Your task to perform on an android device: open app "DoorDash - Dasher" Image 0: 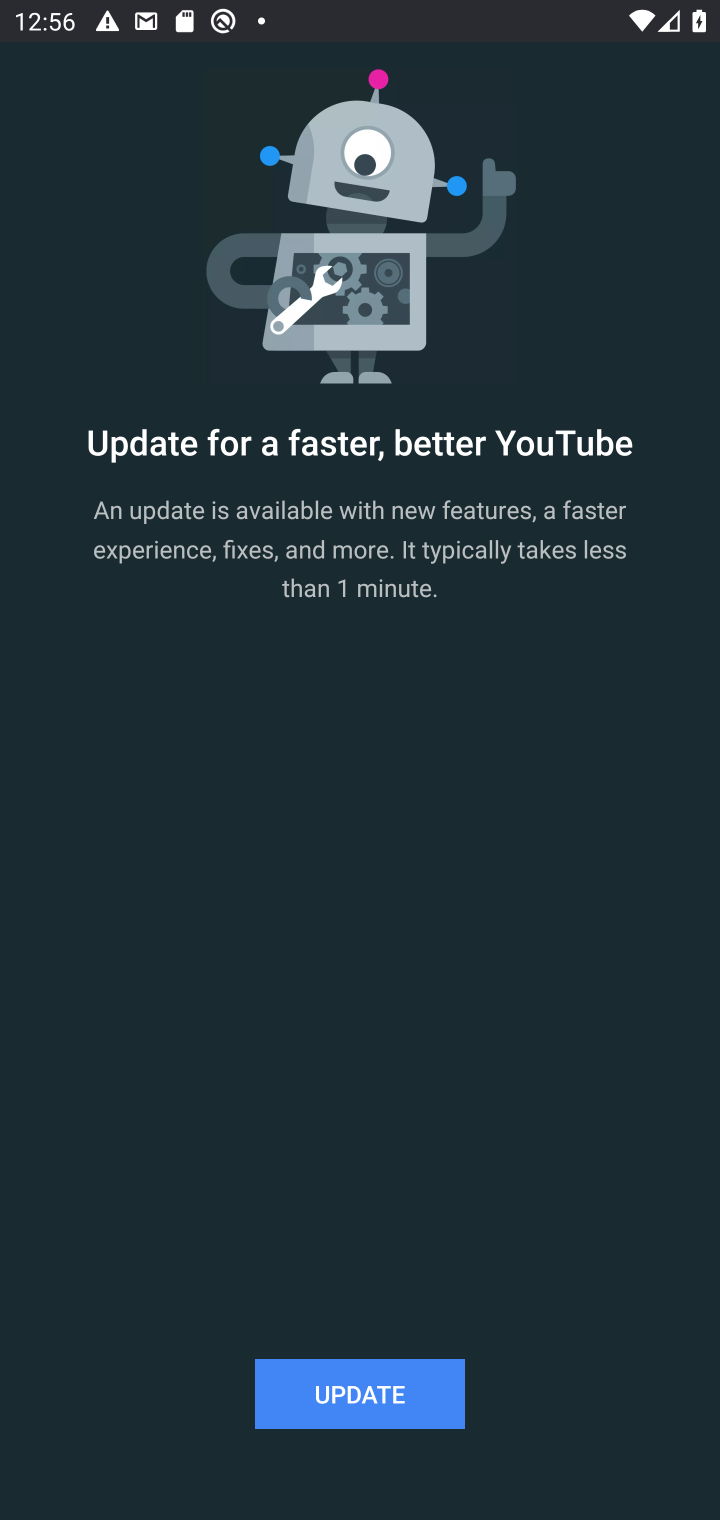
Step 0: press home button
Your task to perform on an android device: open app "DoorDash - Dasher" Image 1: 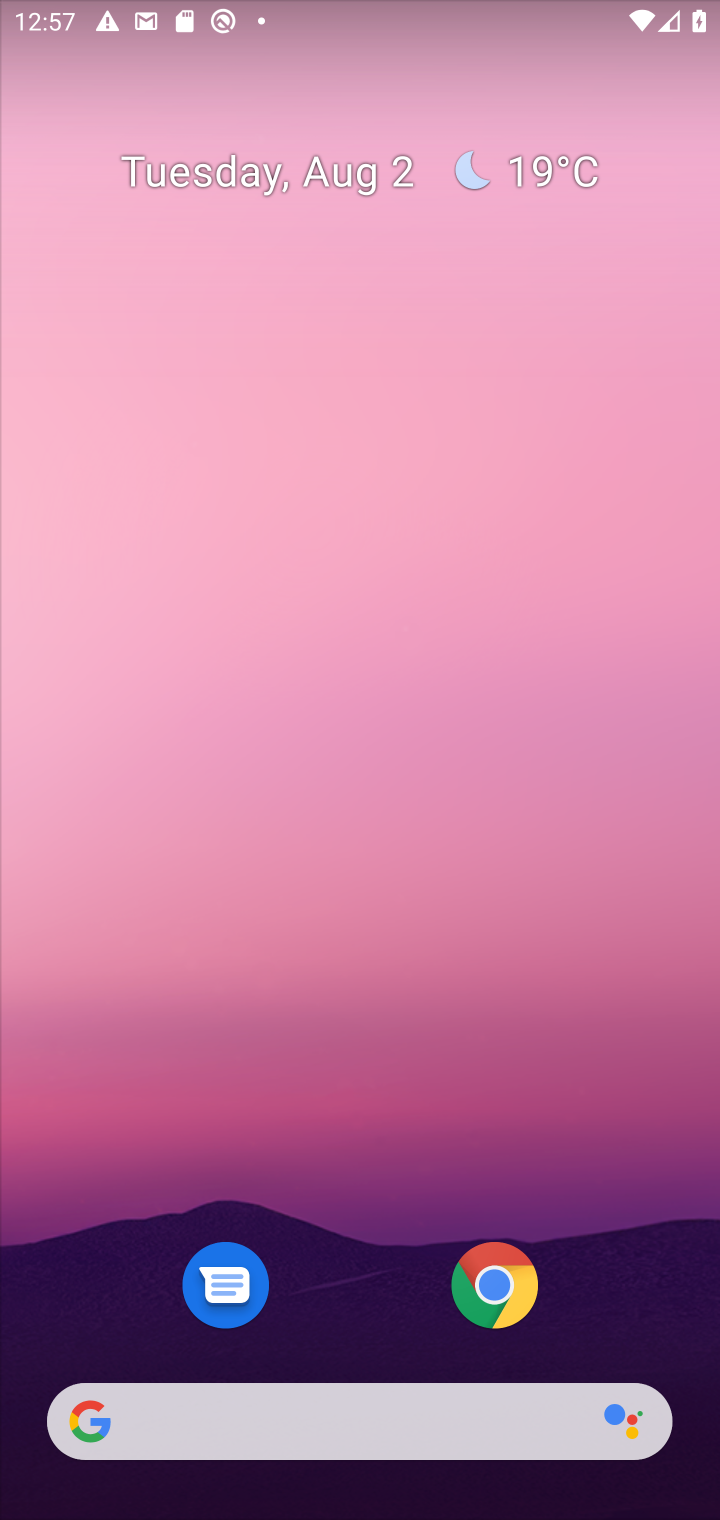
Step 1: drag from (417, 1294) to (498, 281)
Your task to perform on an android device: open app "DoorDash - Dasher" Image 2: 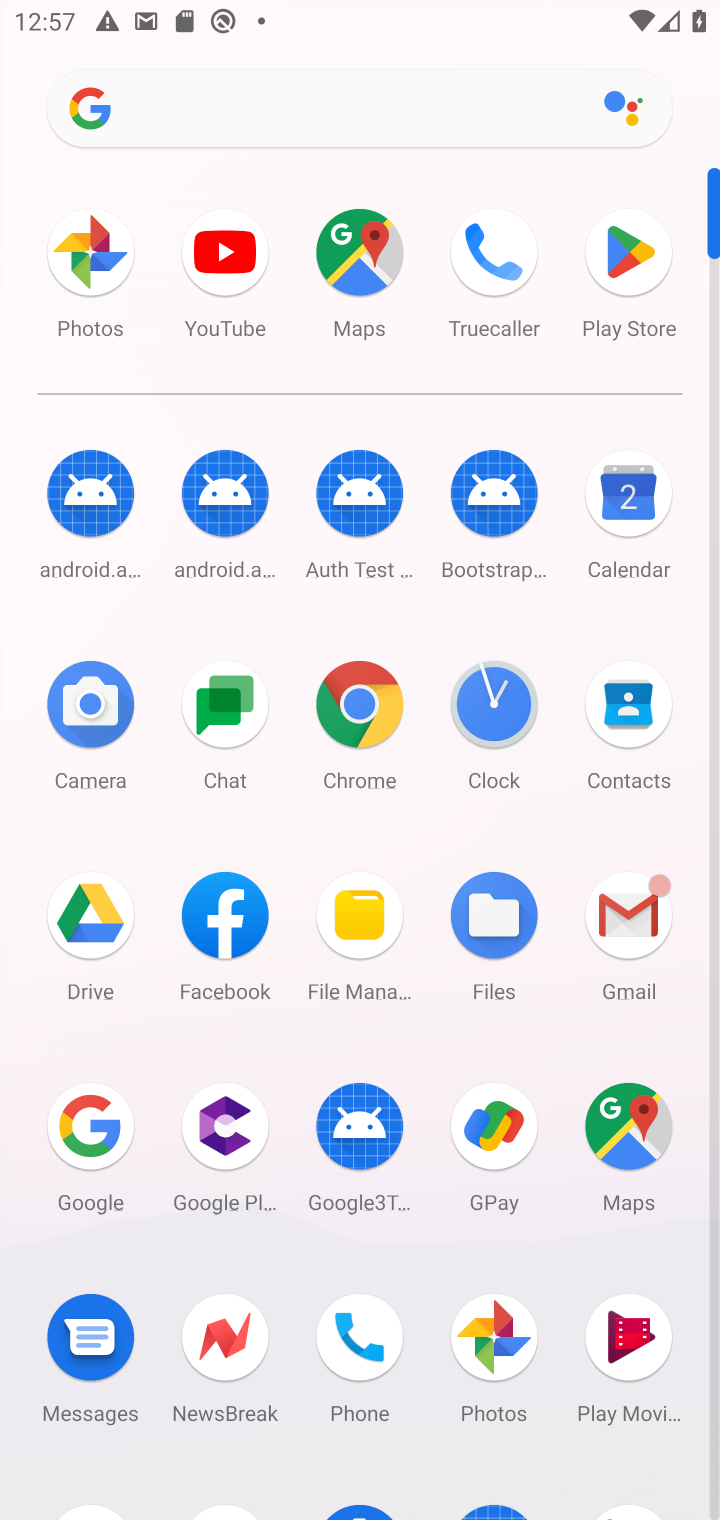
Step 2: click (647, 251)
Your task to perform on an android device: open app "DoorDash - Dasher" Image 3: 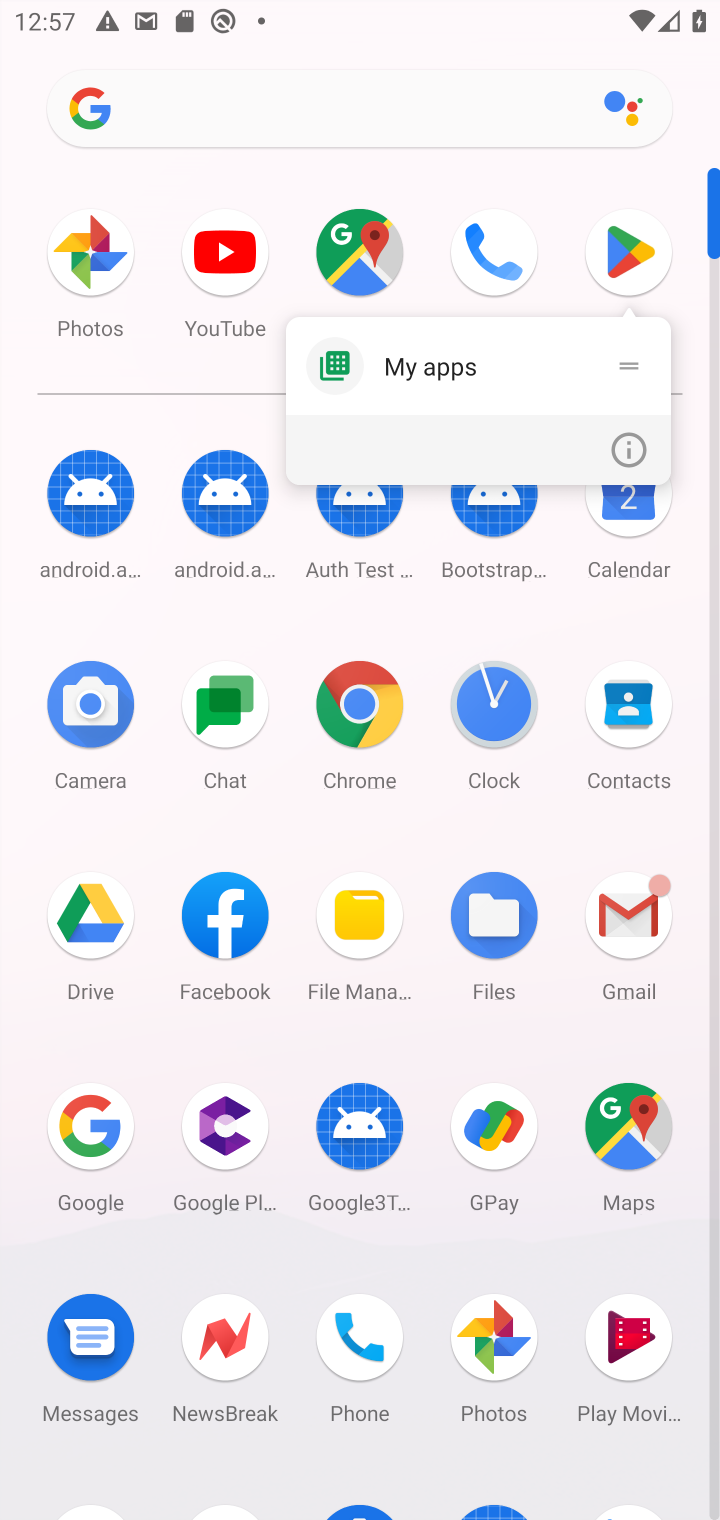
Step 3: click (632, 257)
Your task to perform on an android device: open app "DoorDash - Dasher" Image 4: 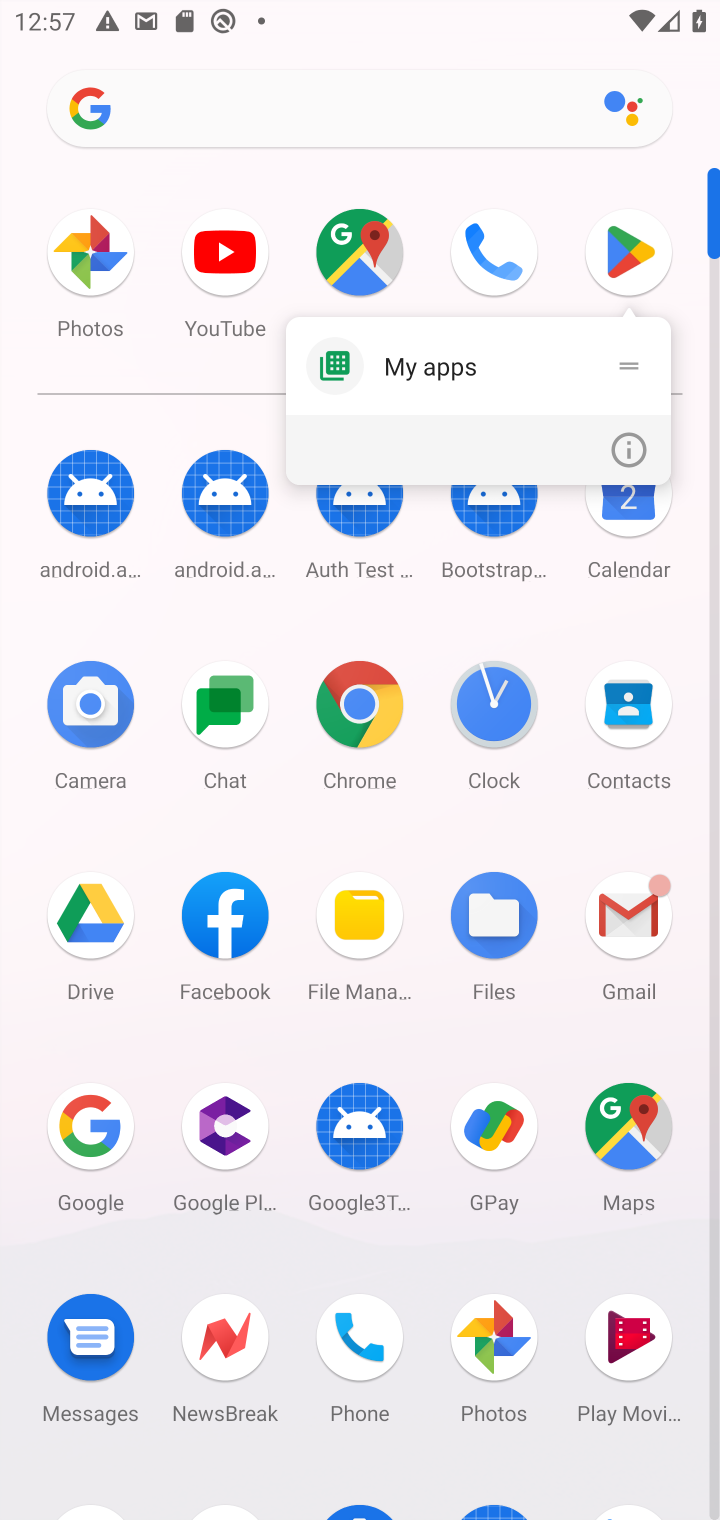
Step 4: click (619, 250)
Your task to perform on an android device: open app "DoorDash - Dasher" Image 5: 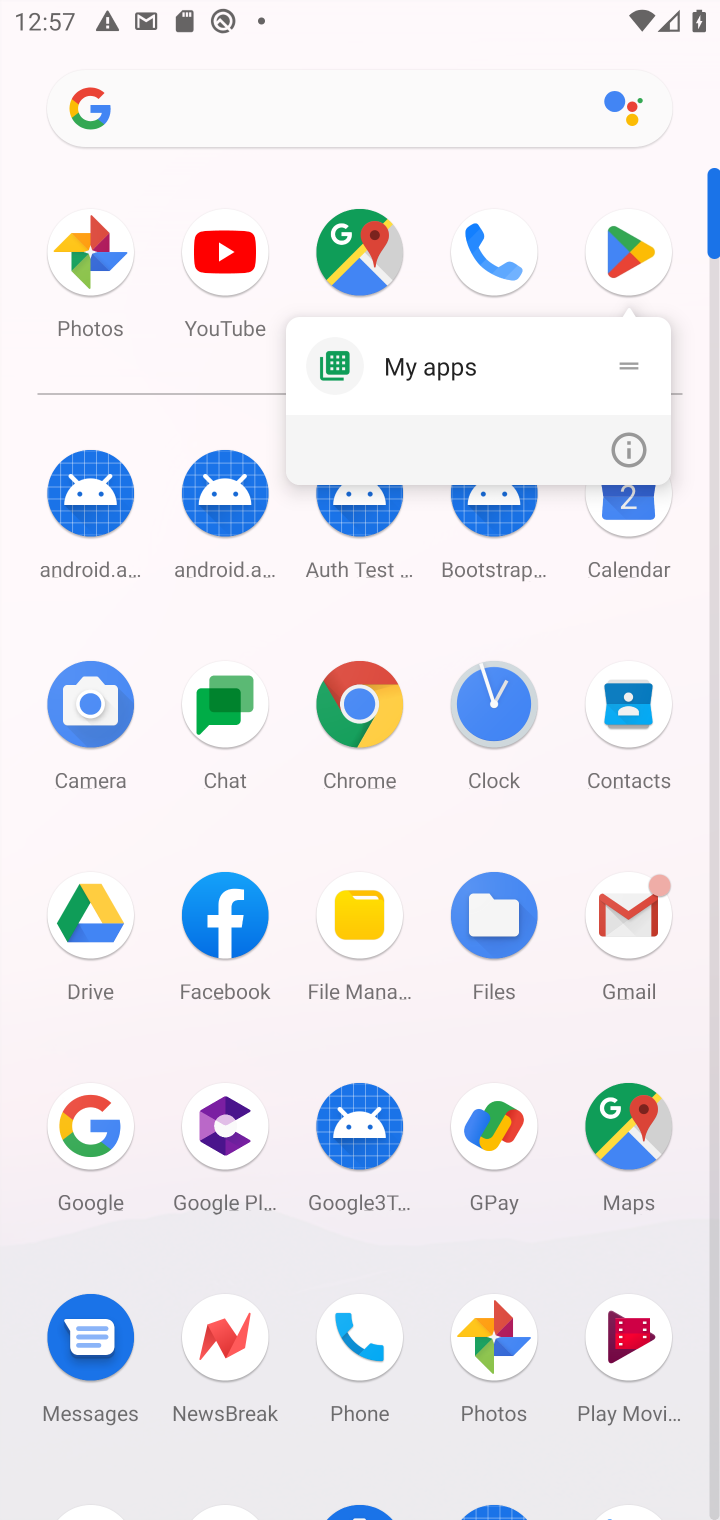
Step 5: click (619, 250)
Your task to perform on an android device: open app "DoorDash - Dasher" Image 6: 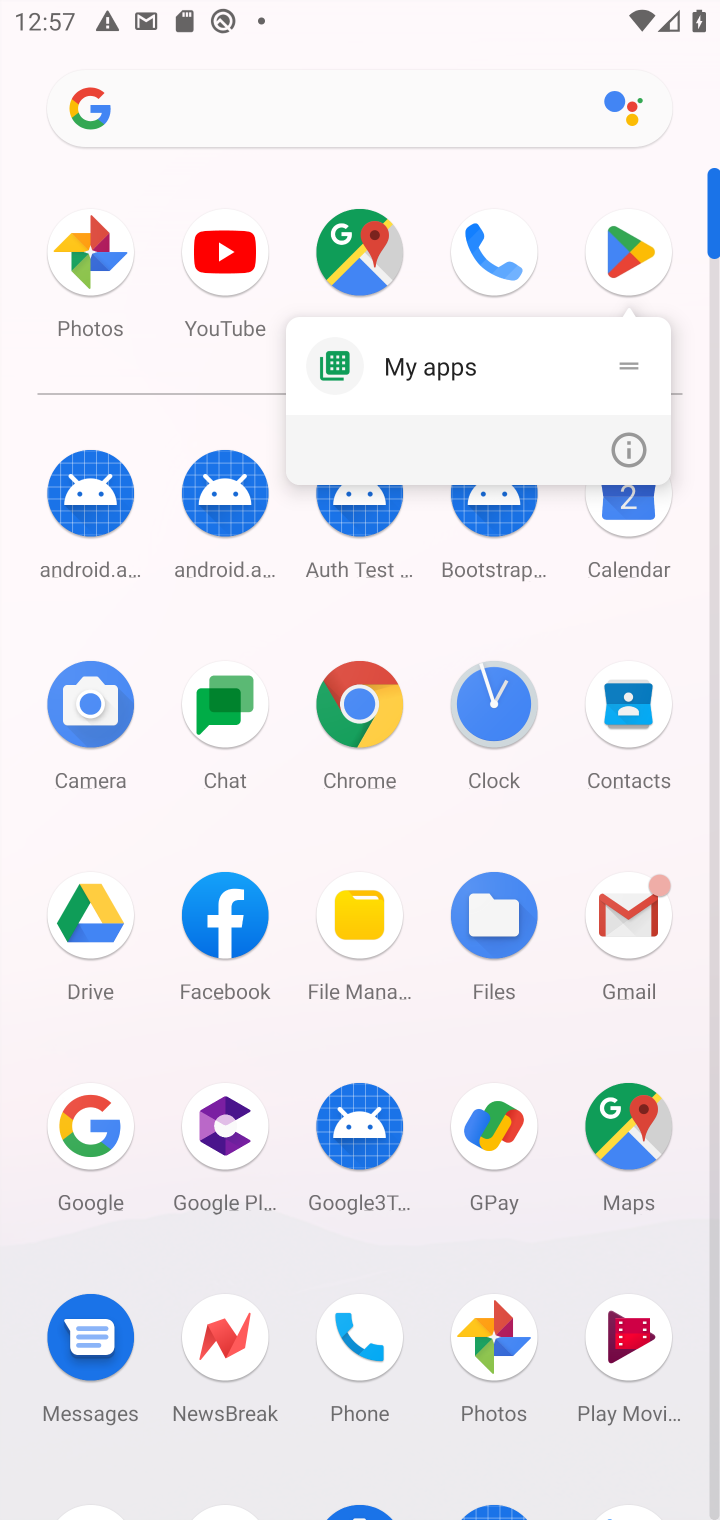
Step 6: click (619, 250)
Your task to perform on an android device: open app "DoorDash - Dasher" Image 7: 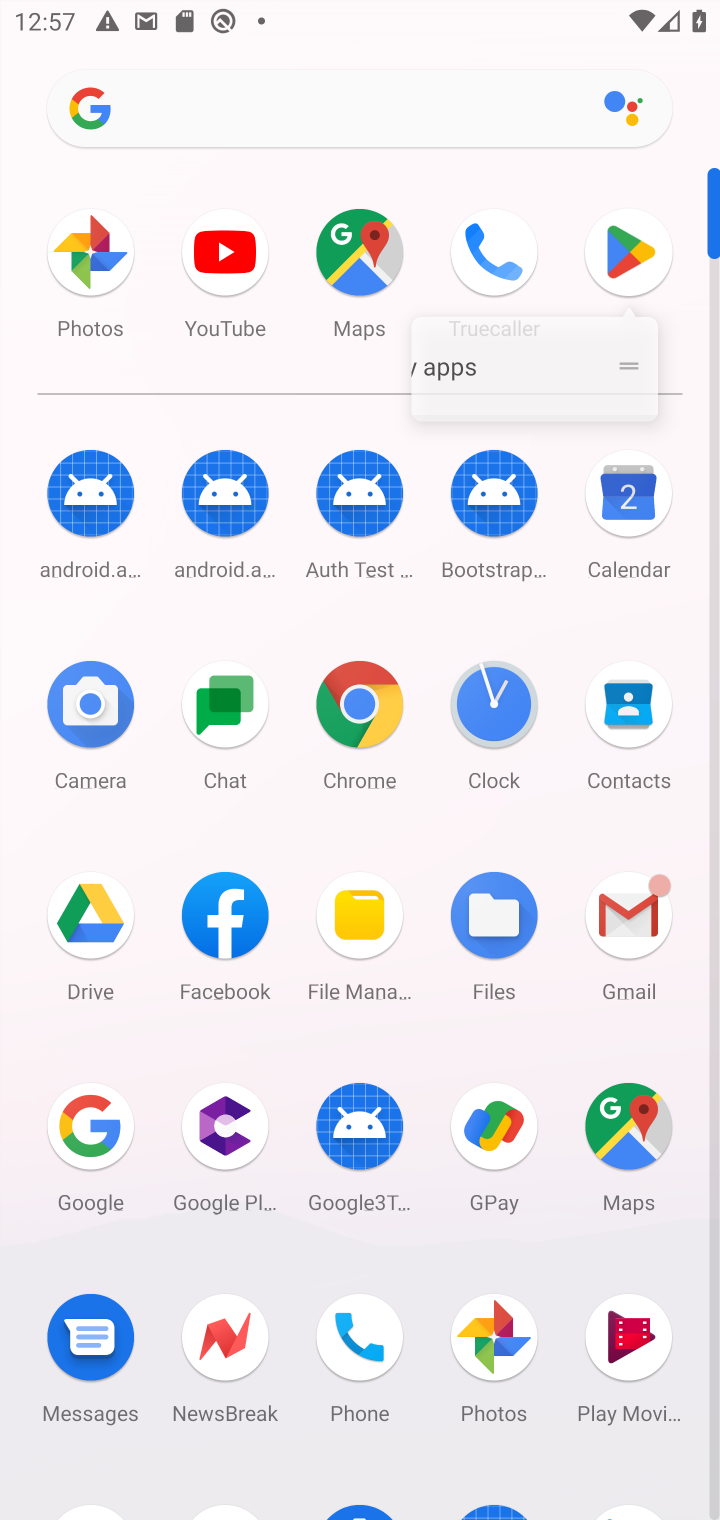
Step 7: click (619, 250)
Your task to perform on an android device: open app "DoorDash - Dasher" Image 8: 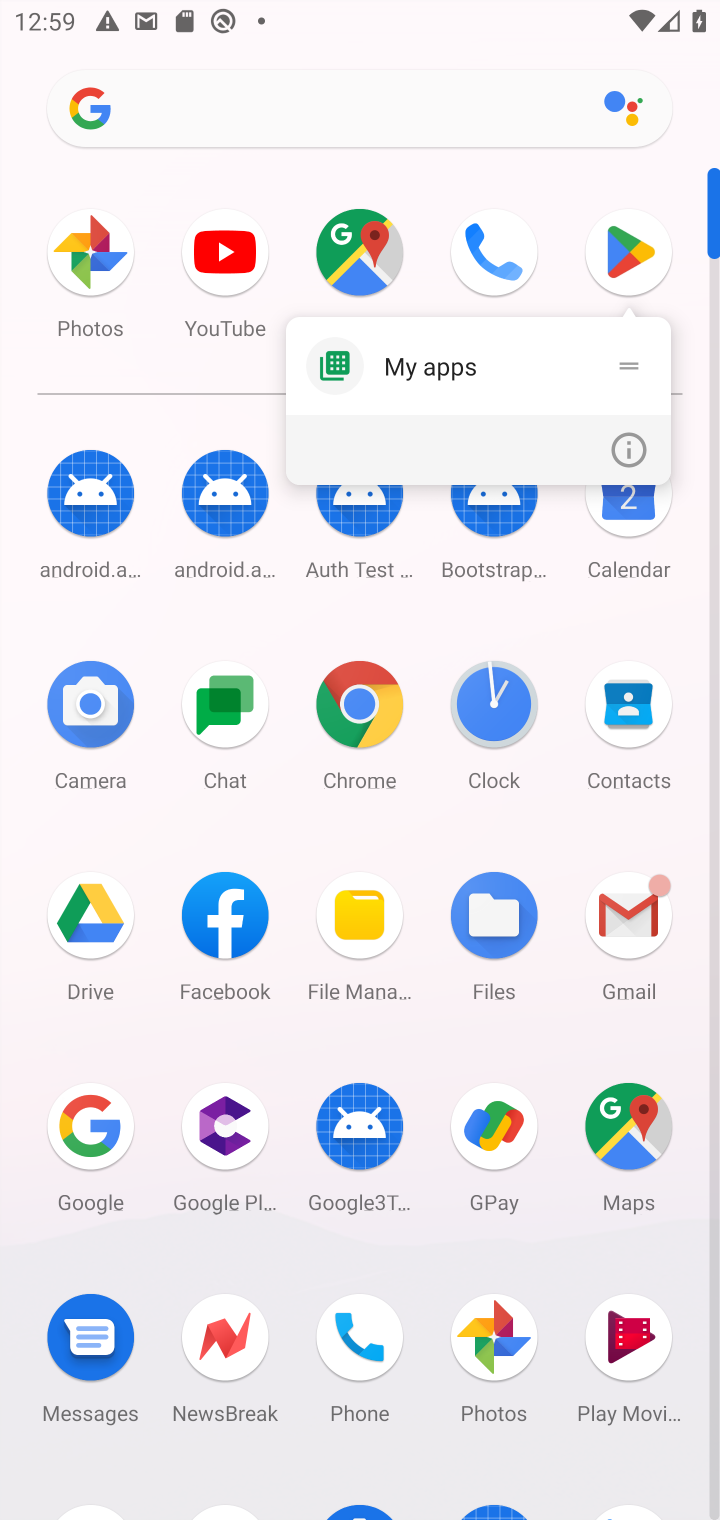
Step 8: click (619, 233)
Your task to perform on an android device: open app "DoorDash - Dasher" Image 9: 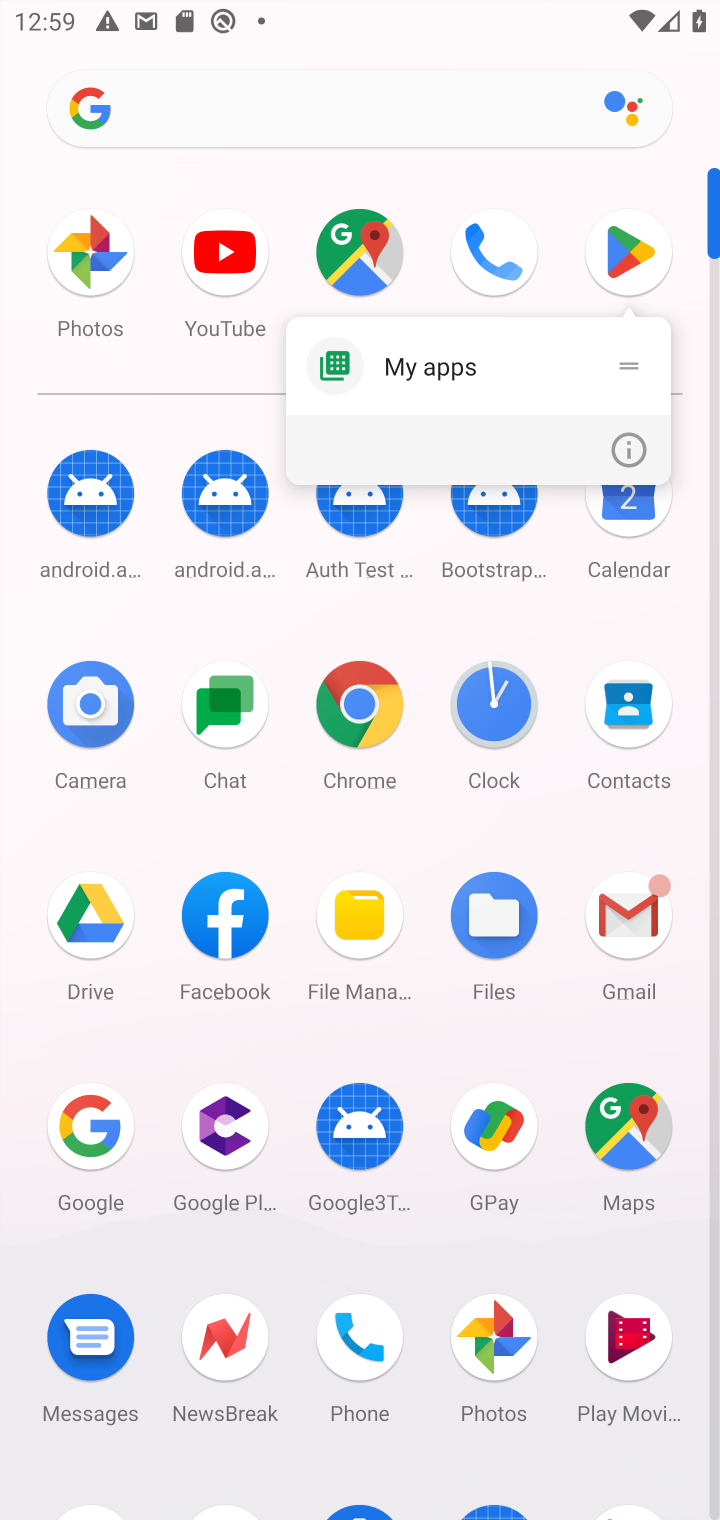
Step 9: click (619, 233)
Your task to perform on an android device: open app "DoorDash - Dasher" Image 10: 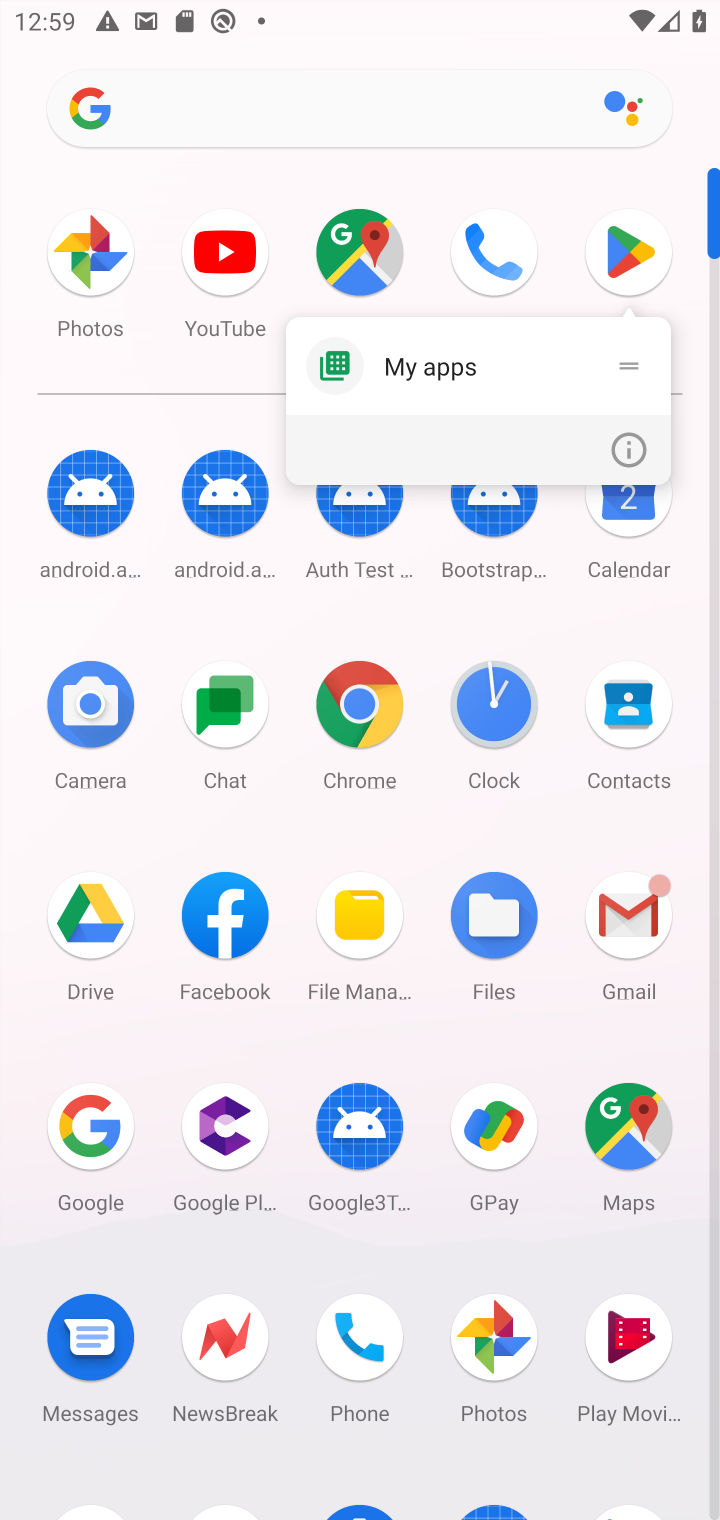
Step 10: click (619, 233)
Your task to perform on an android device: open app "DoorDash - Dasher" Image 11: 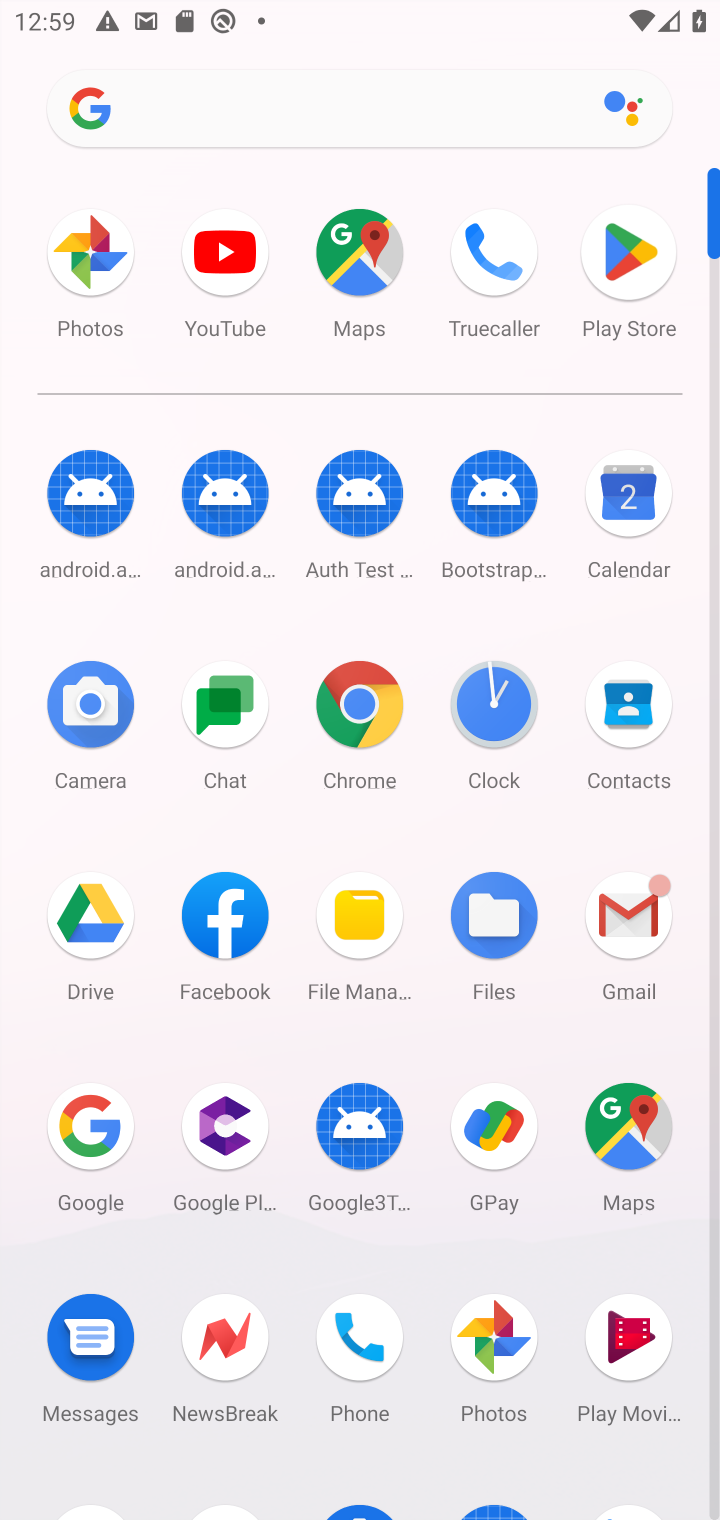
Step 11: click (619, 233)
Your task to perform on an android device: open app "DoorDash - Dasher" Image 12: 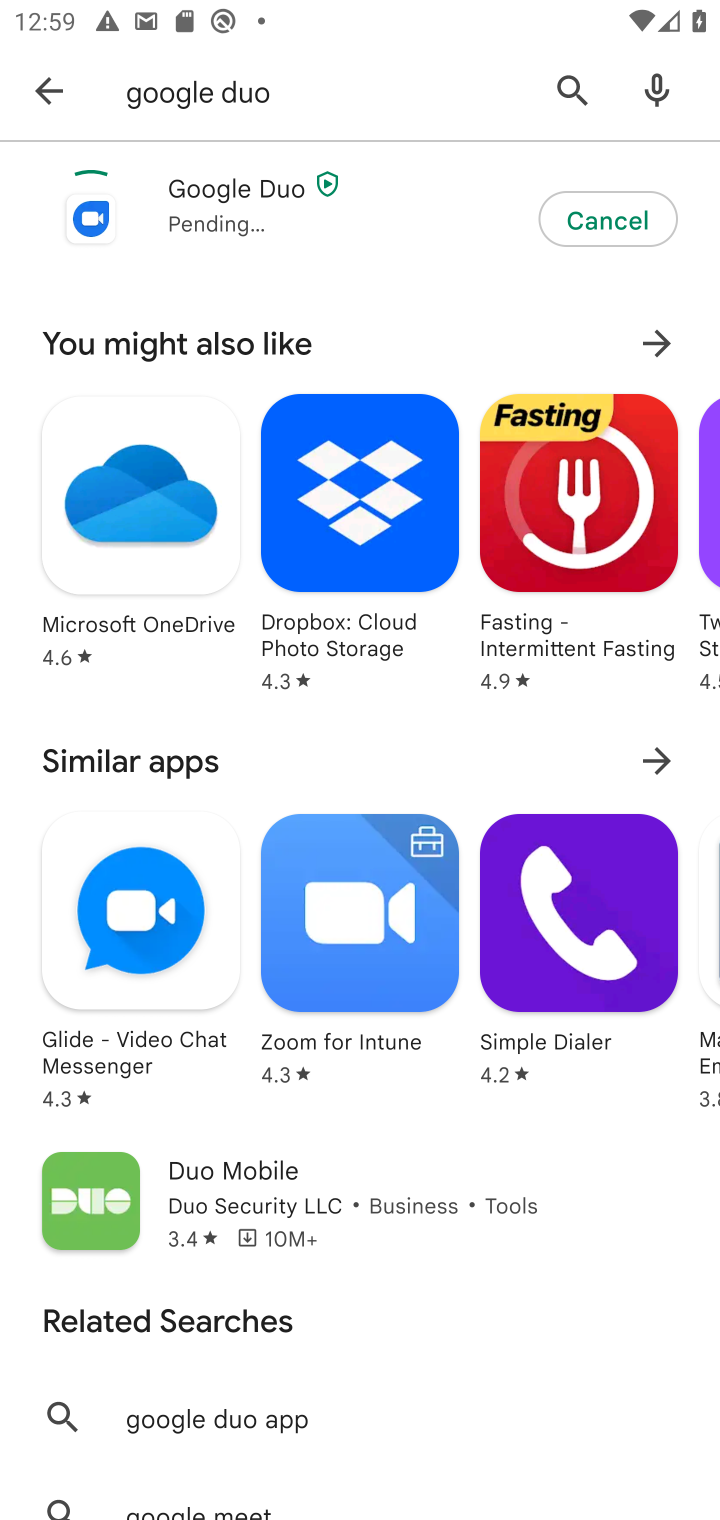
Step 12: click (560, 78)
Your task to perform on an android device: open app "DoorDash - Dasher" Image 13: 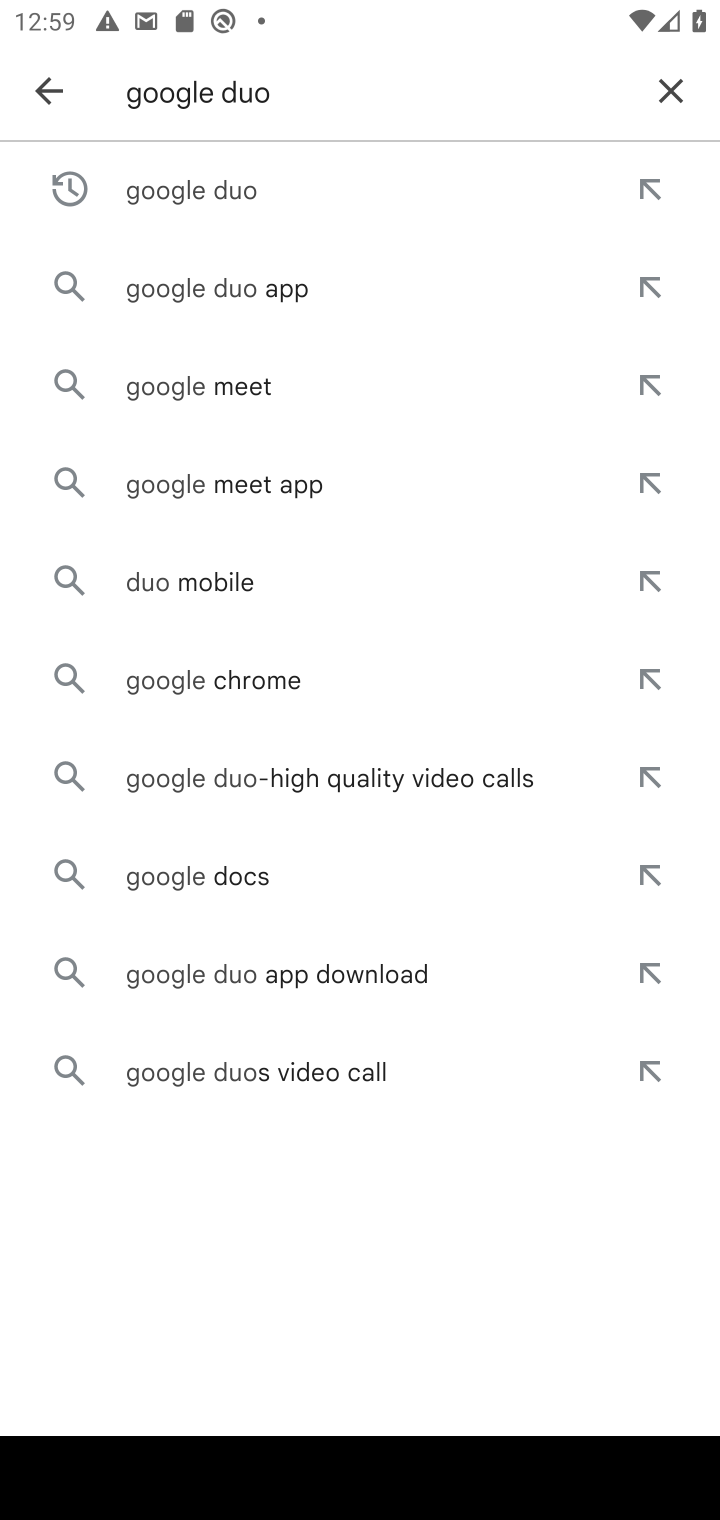
Step 13: click (677, 71)
Your task to perform on an android device: open app "DoorDash - Dasher" Image 14: 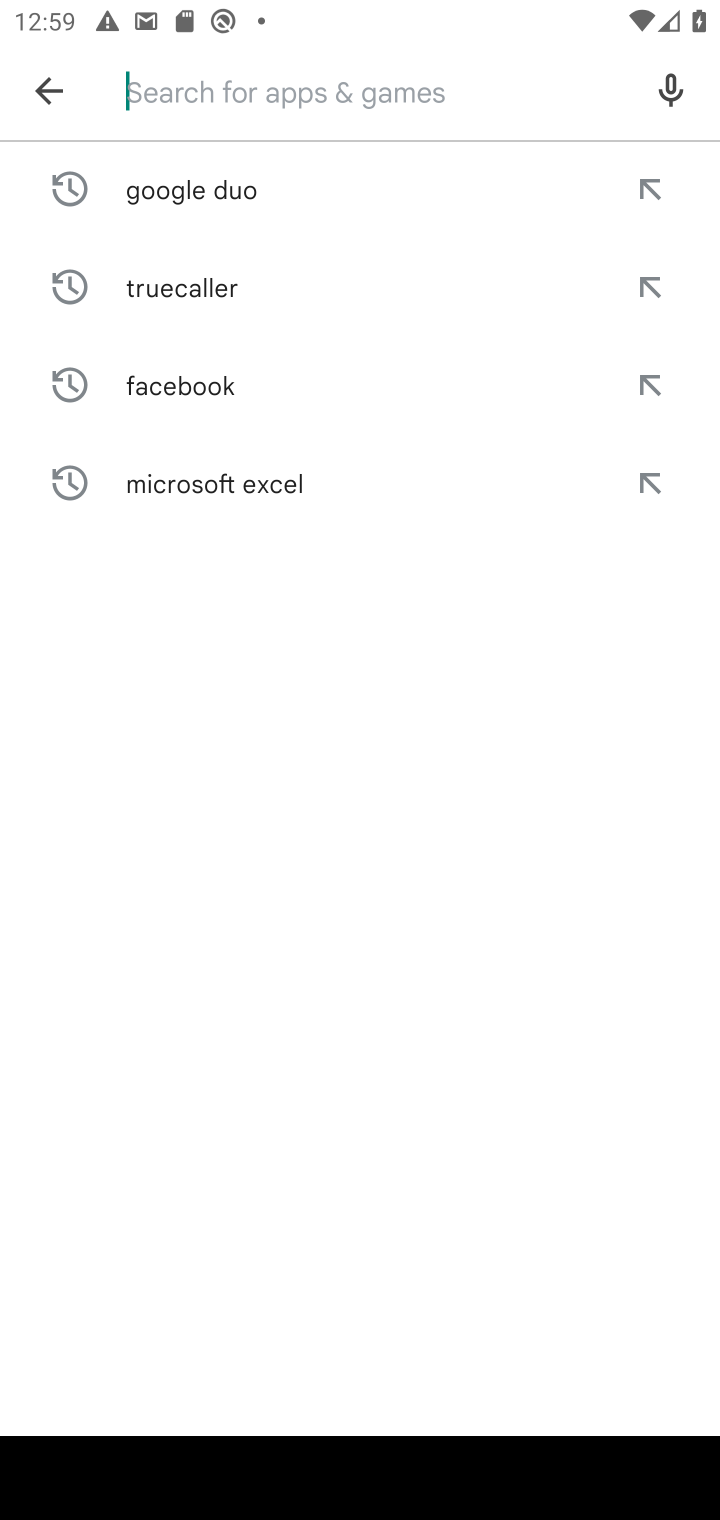
Step 14: type "DoorDash -"
Your task to perform on an android device: open app "DoorDash - Dasher" Image 15: 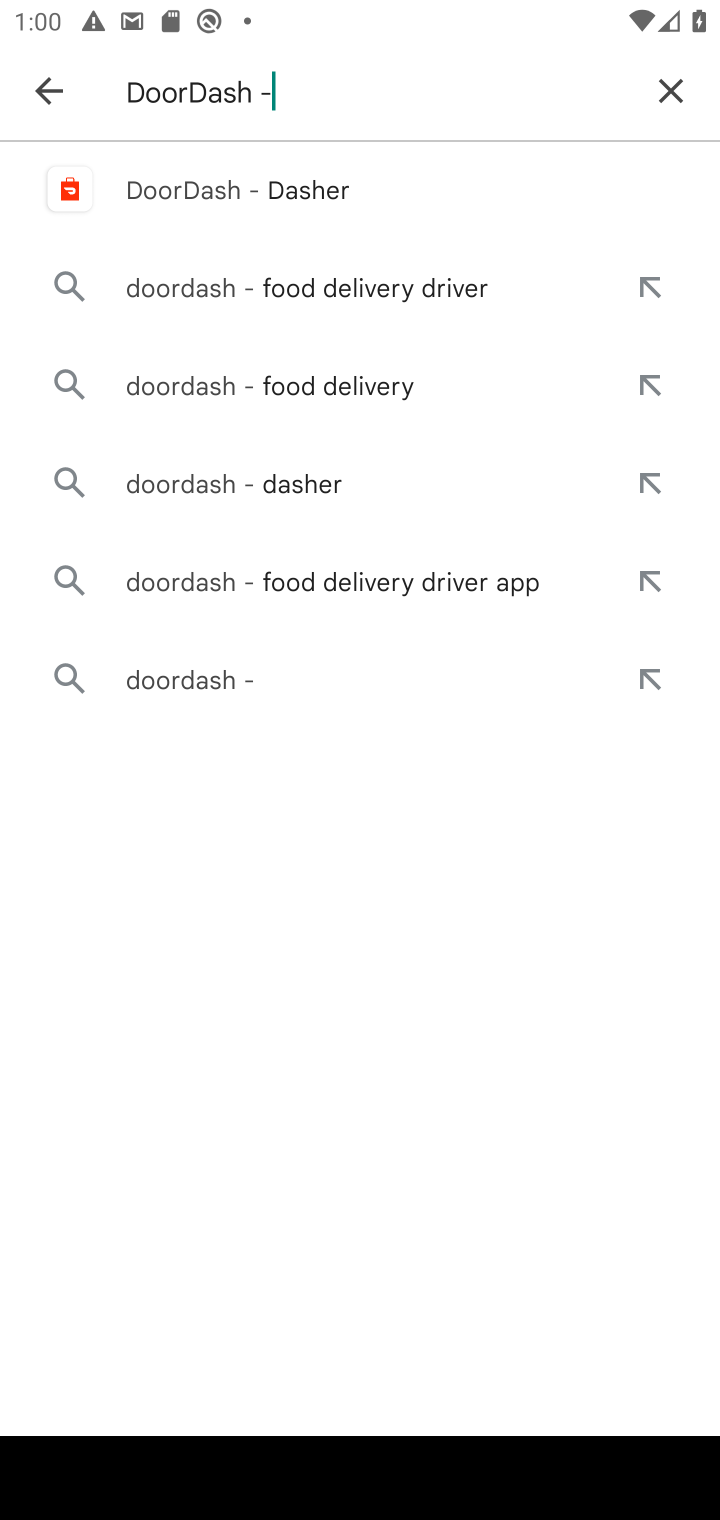
Step 15: press home button
Your task to perform on an android device: open app "DoorDash - Dasher" Image 16: 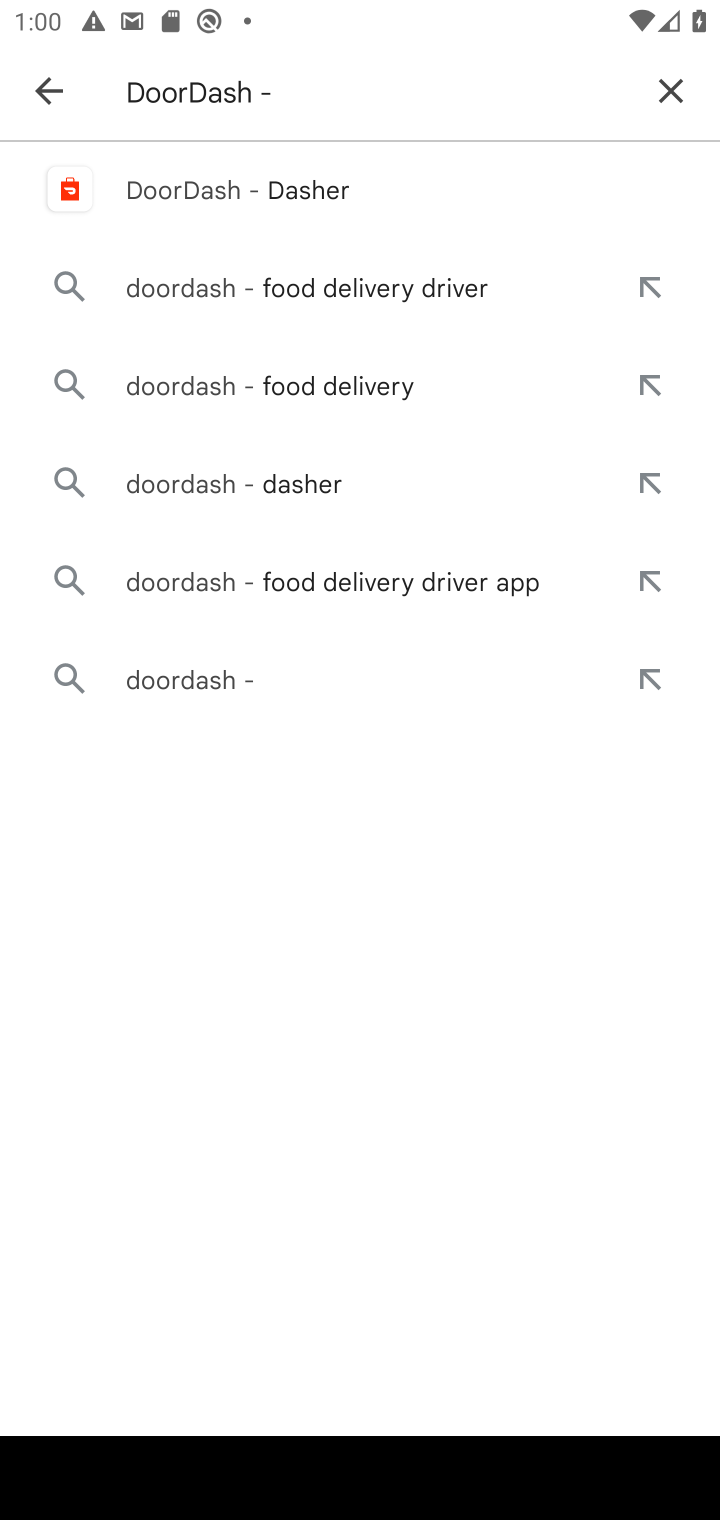
Step 16: press home button
Your task to perform on an android device: open app "DoorDash - Dasher" Image 17: 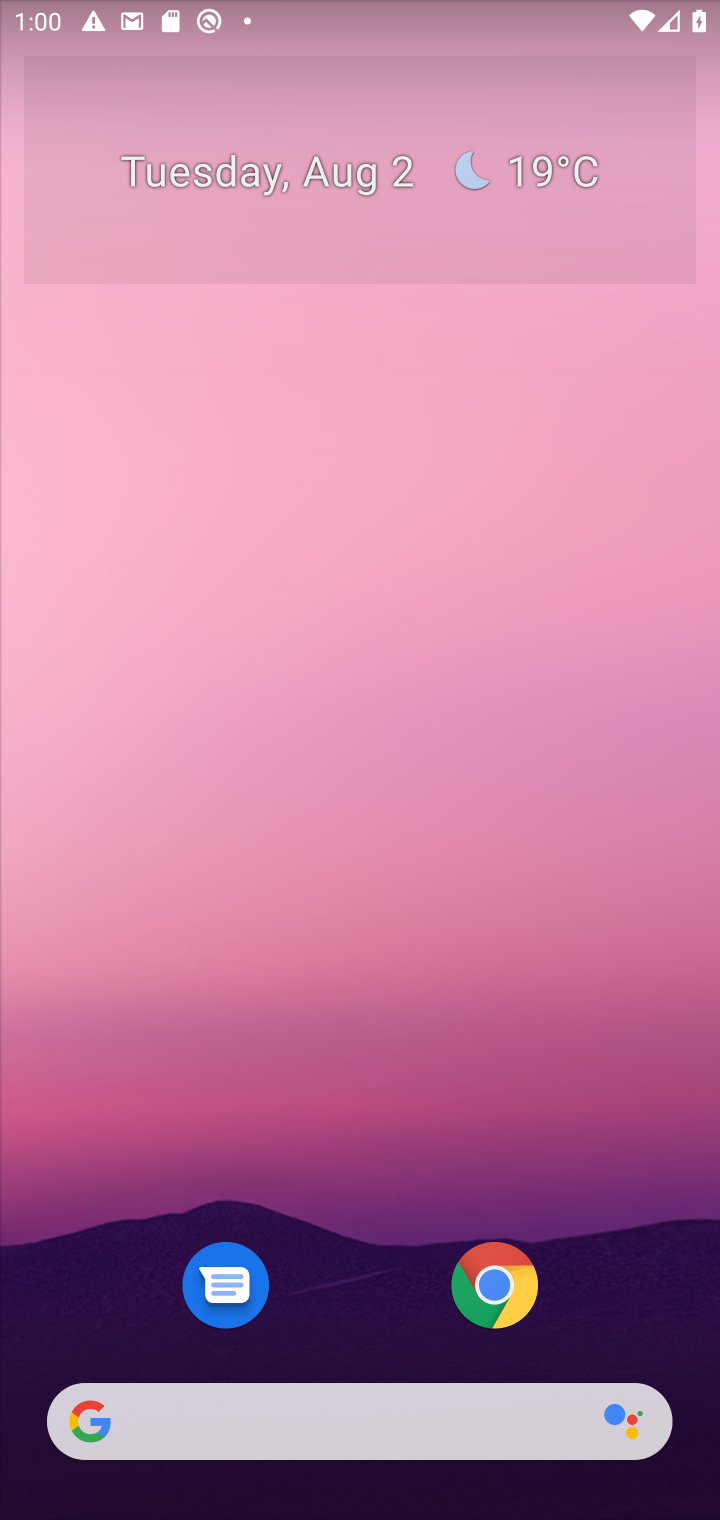
Step 17: drag from (500, 643) to (512, 445)
Your task to perform on an android device: open app "DoorDash - Dasher" Image 18: 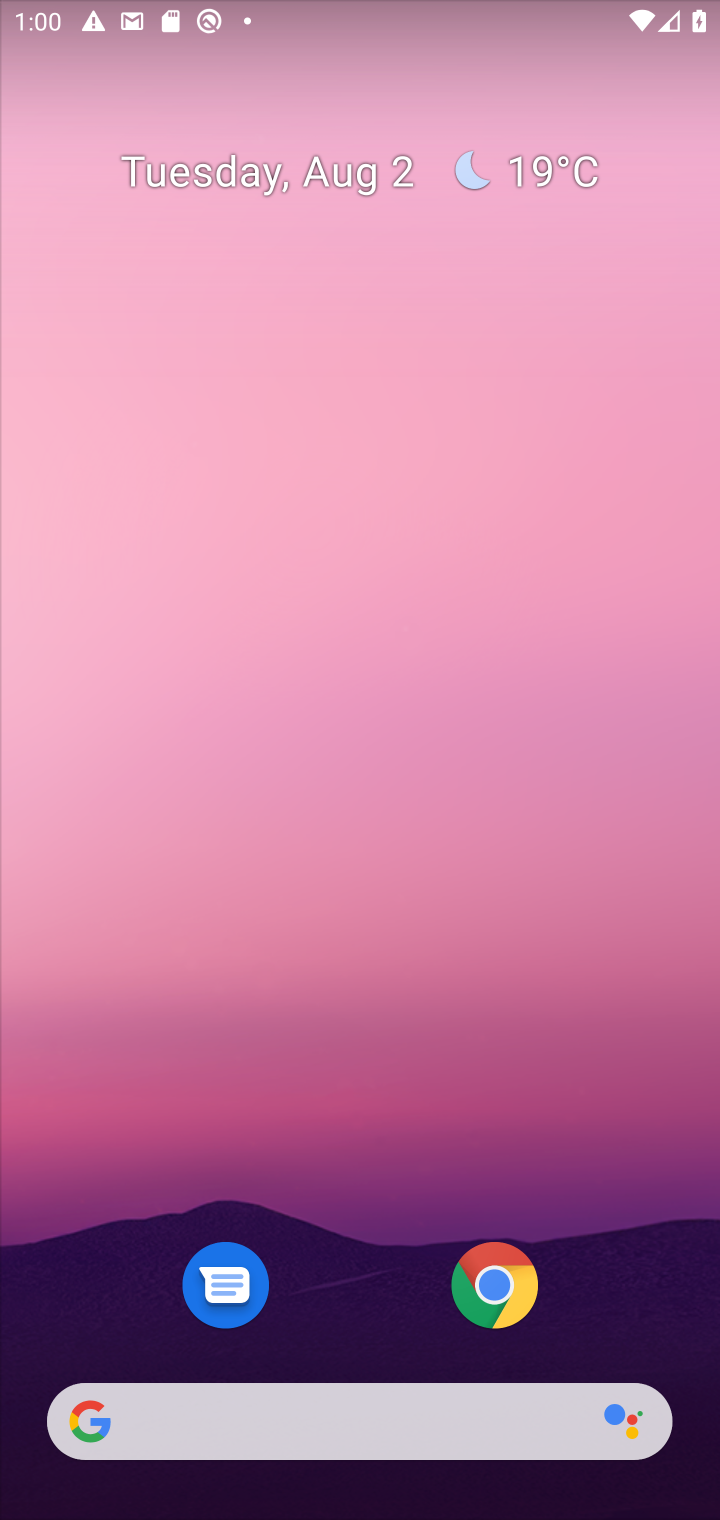
Step 18: drag from (379, 1228) to (344, 160)
Your task to perform on an android device: open app "DoorDash - Dasher" Image 19: 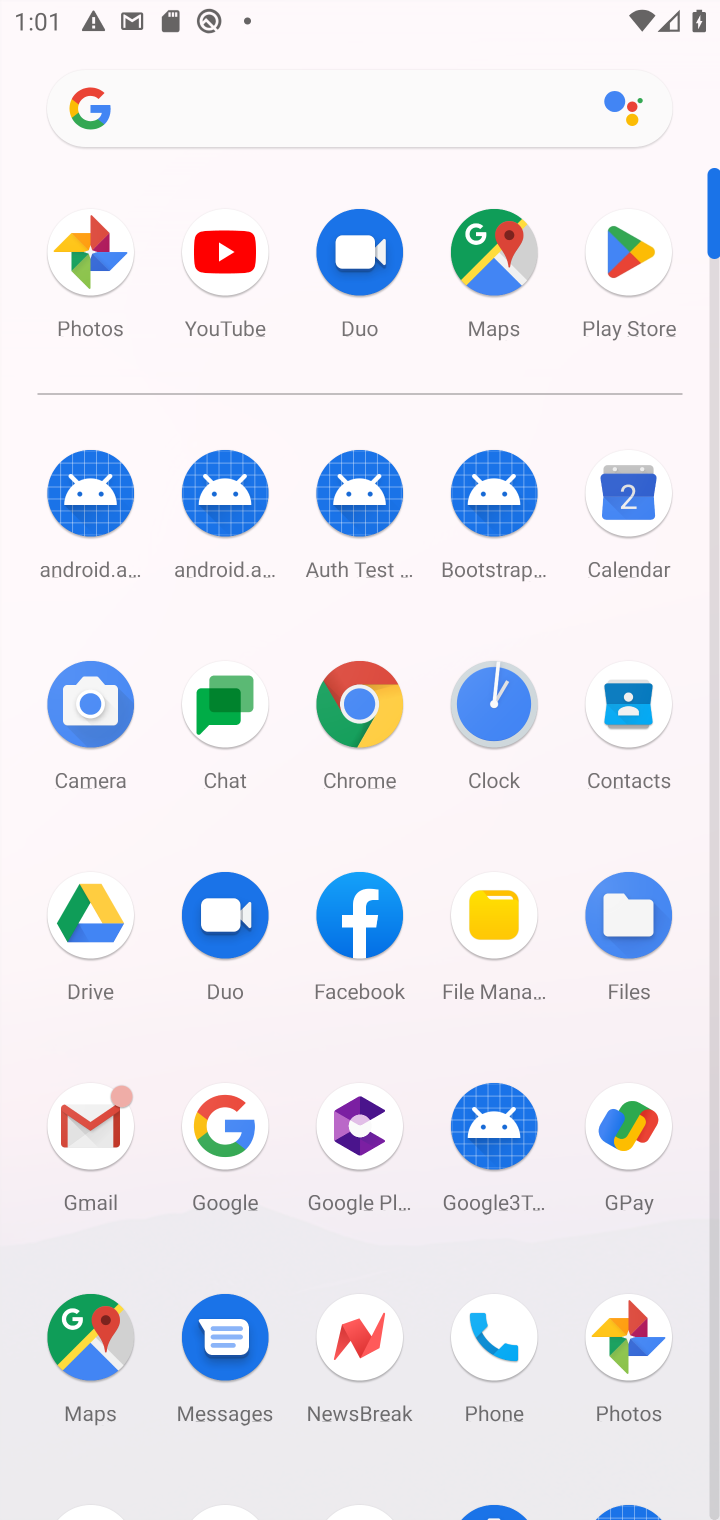
Step 19: click (627, 271)
Your task to perform on an android device: open app "DoorDash - Dasher" Image 20: 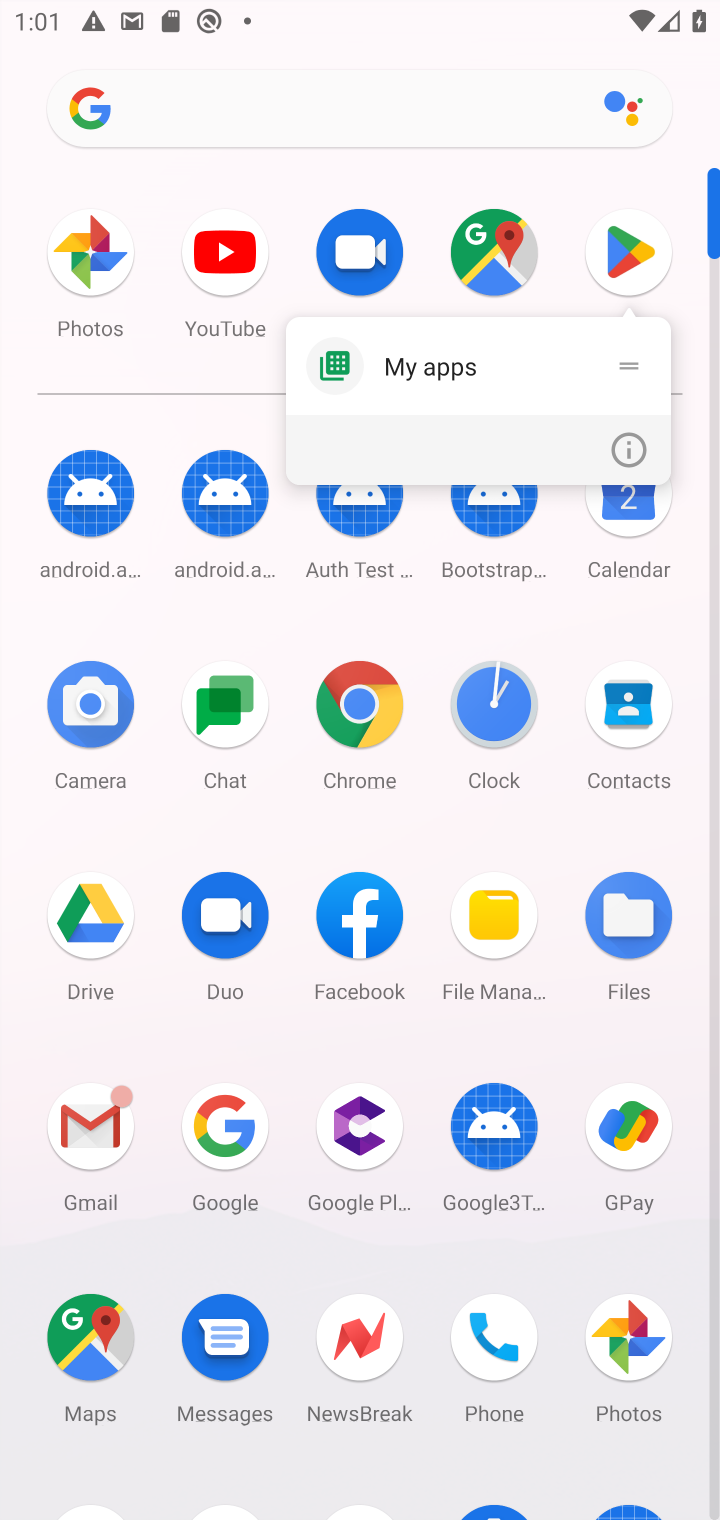
Step 20: click (627, 271)
Your task to perform on an android device: open app "DoorDash - Dasher" Image 21: 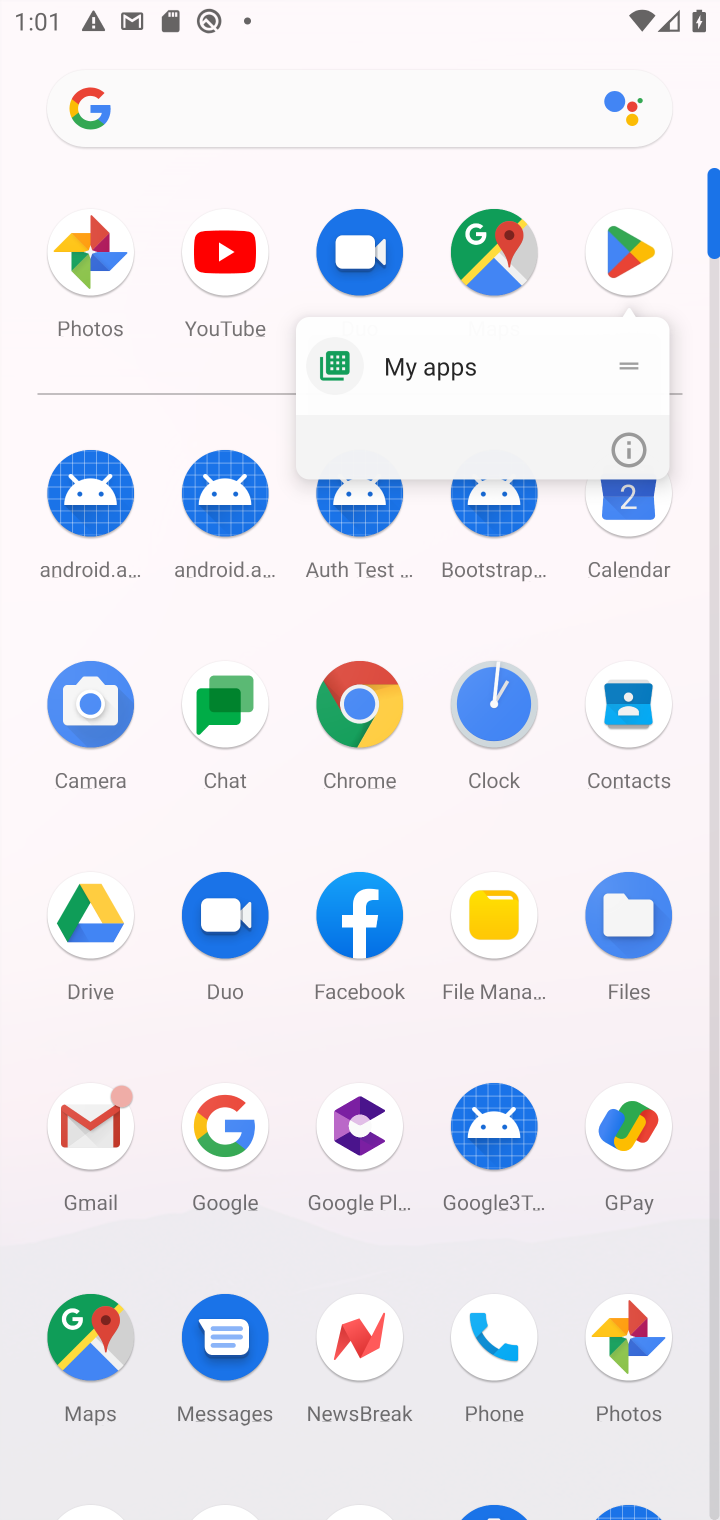
Step 21: click (627, 271)
Your task to perform on an android device: open app "DoorDash - Dasher" Image 22: 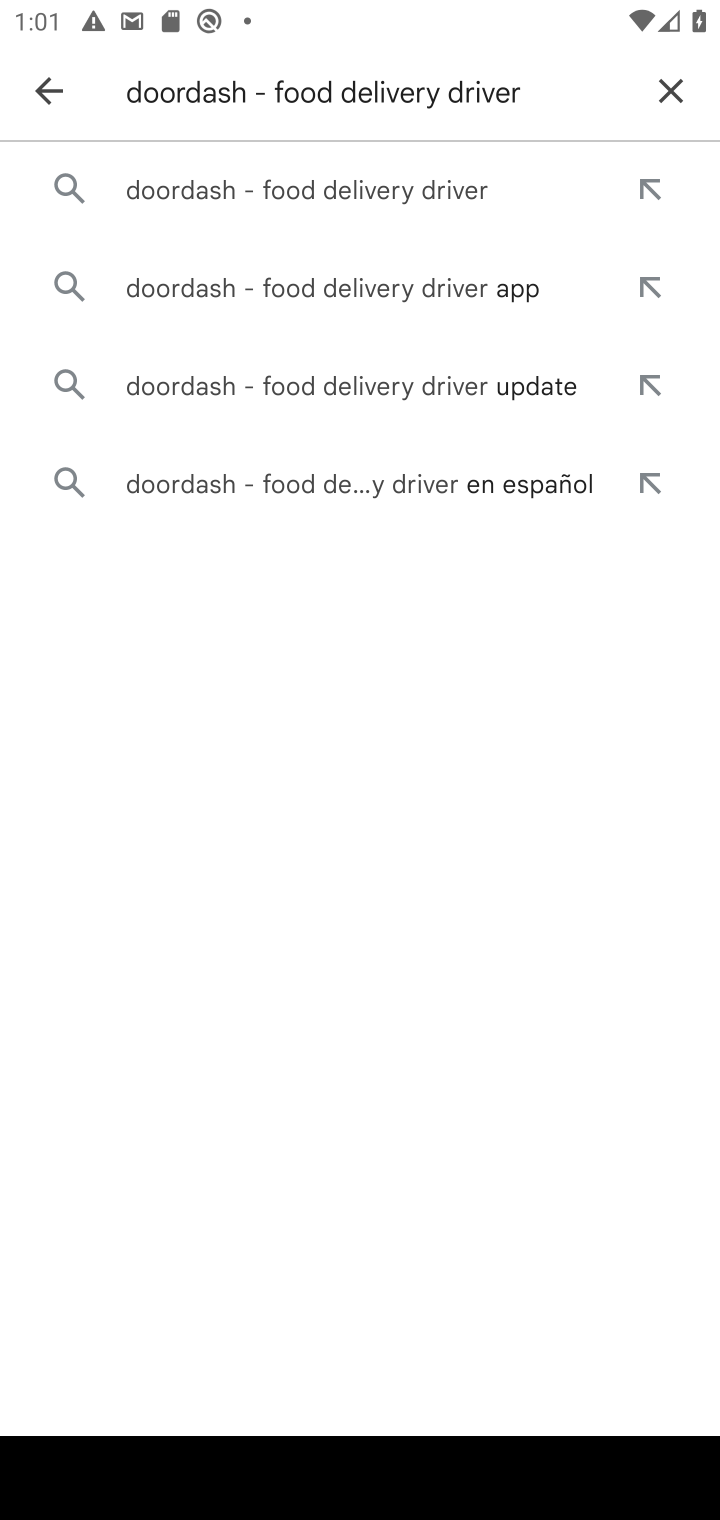
Step 22: click (498, 179)
Your task to perform on an android device: open app "DoorDash - Dasher" Image 23: 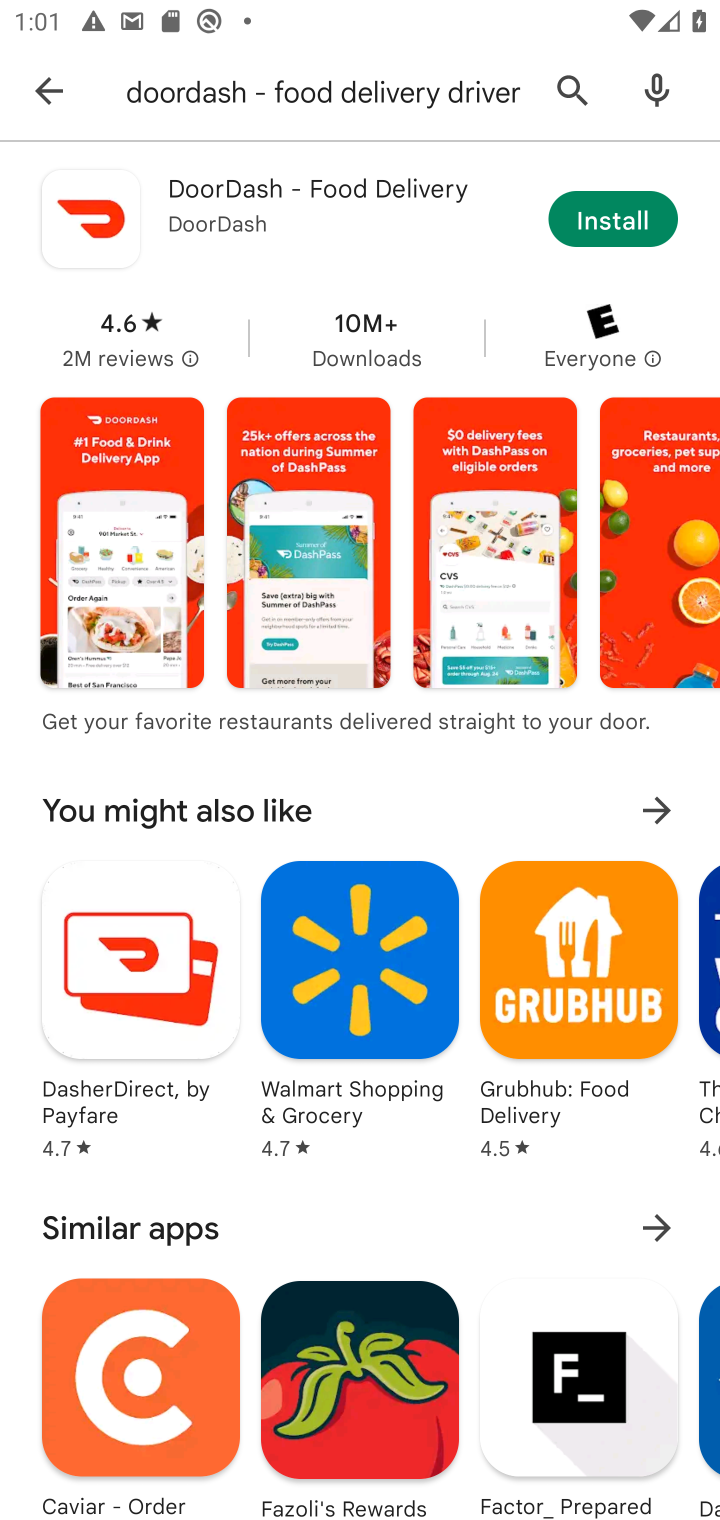
Step 23: click (603, 235)
Your task to perform on an android device: open app "DoorDash - Dasher" Image 24: 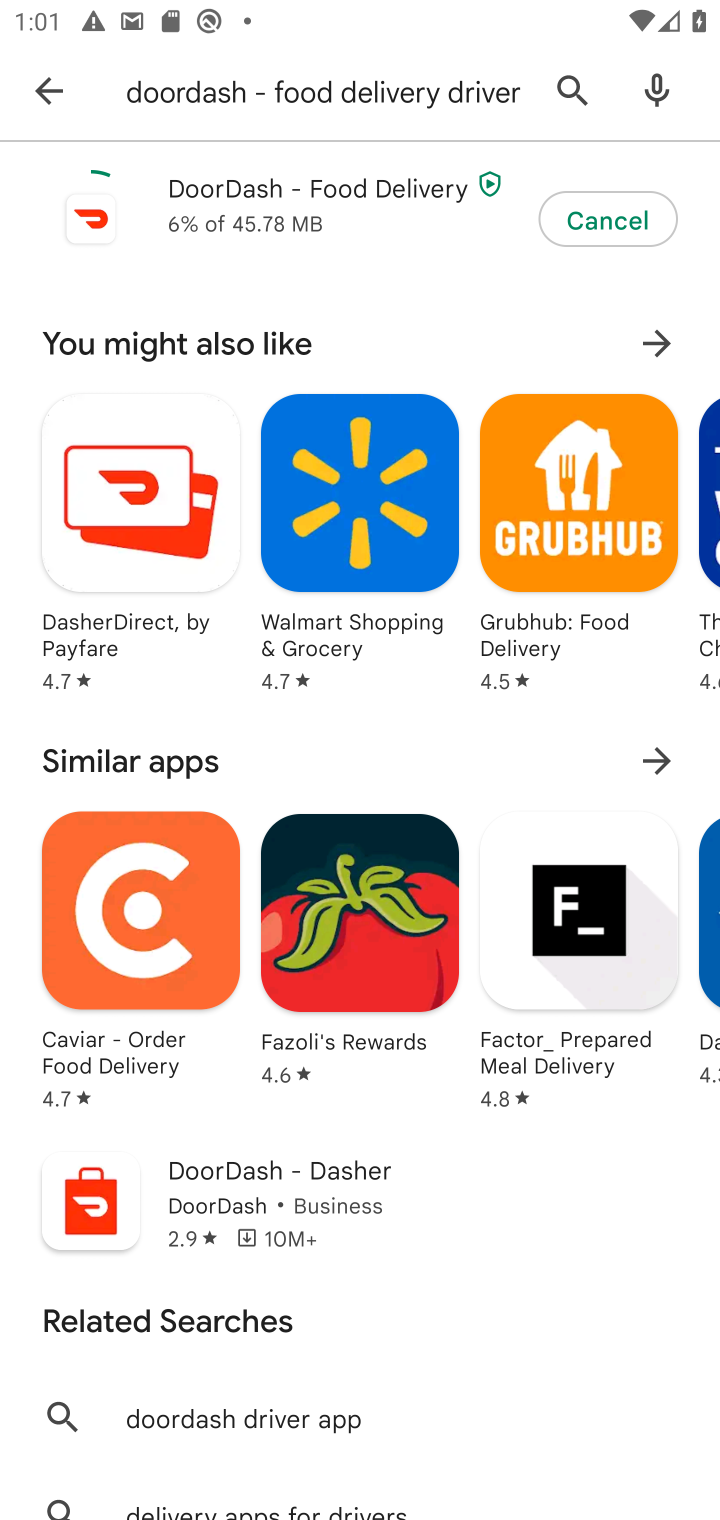
Step 24: click (615, 208)
Your task to perform on an android device: open app "DoorDash - Dasher" Image 25: 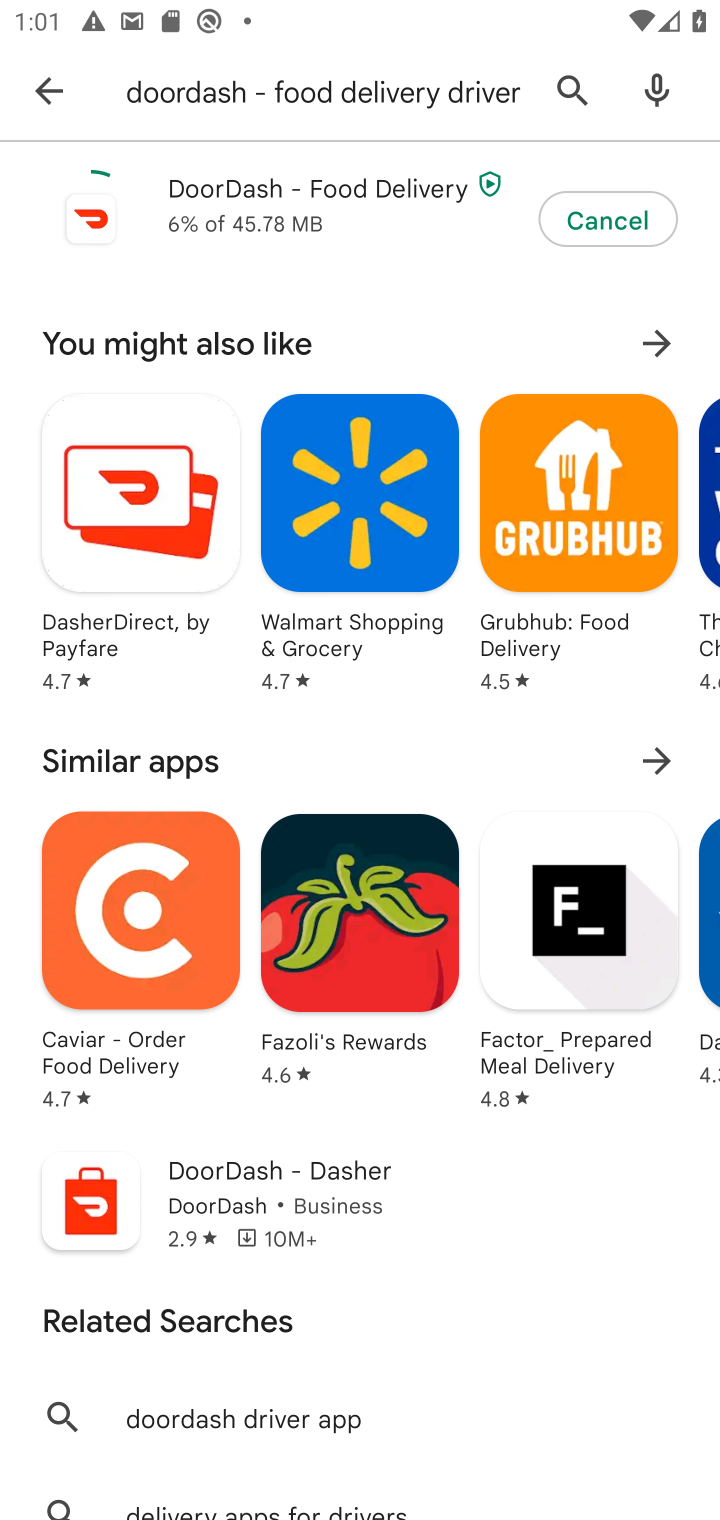
Step 25: click (72, 1226)
Your task to perform on an android device: open app "DoorDash - Dasher" Image 26: 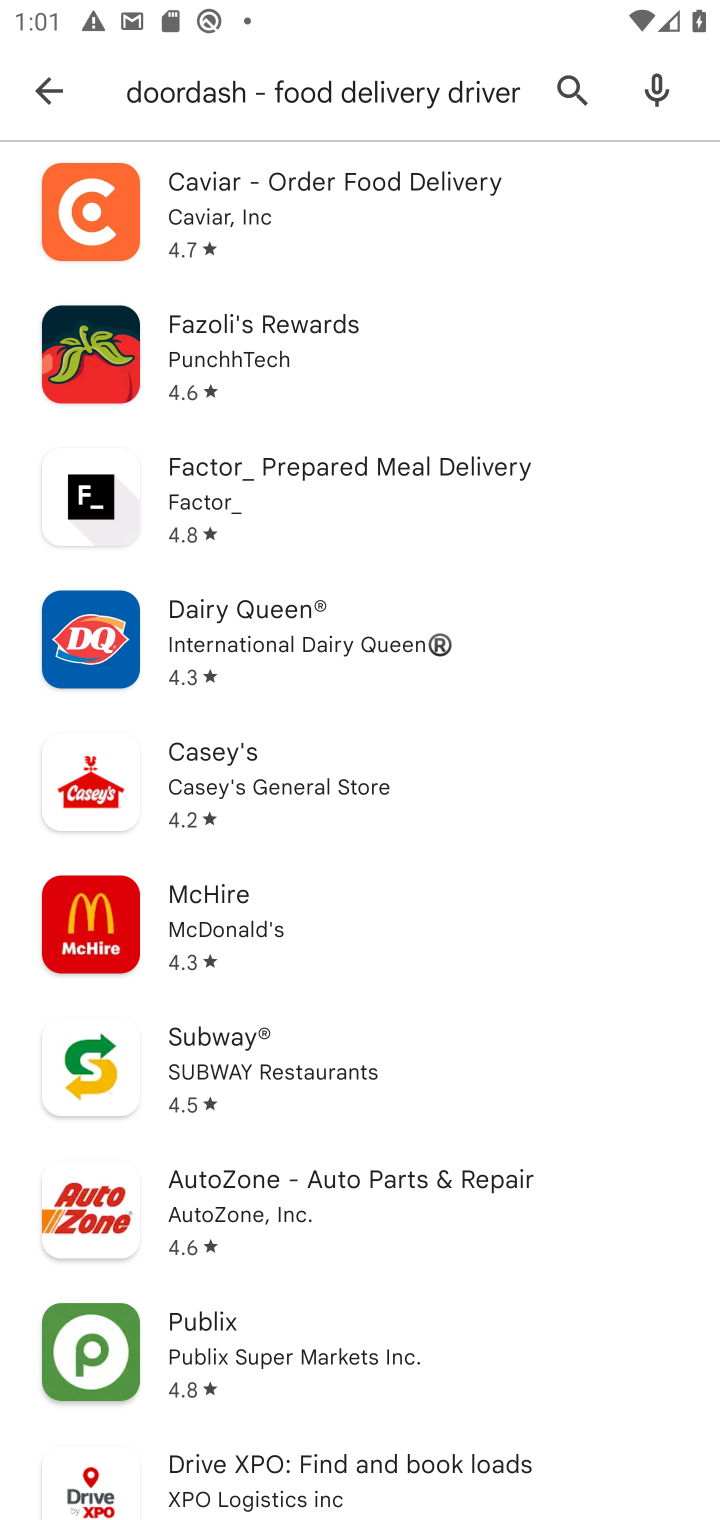
Step 26: click (570, 78)
Your task to perform on an android device: open app "DoorDash - Dasher" Image 27: 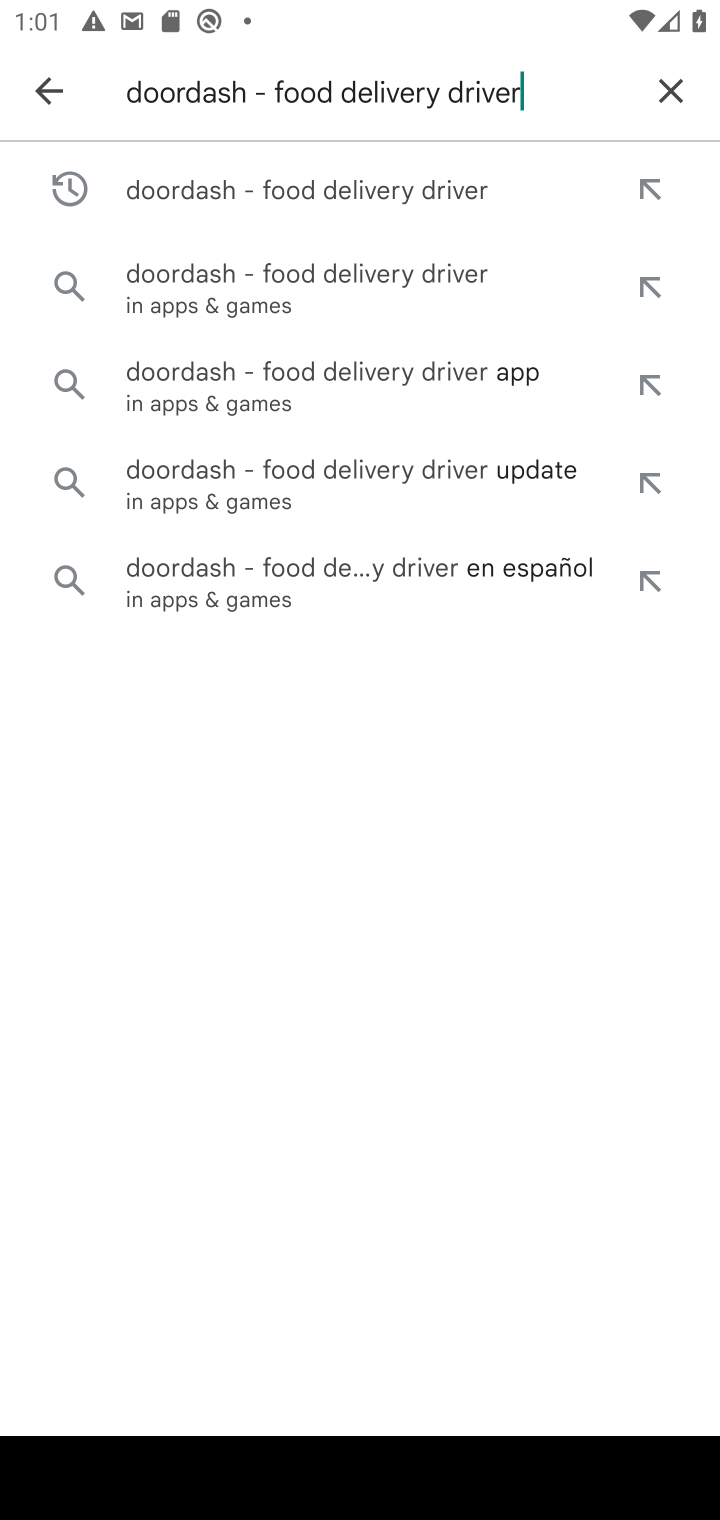
Step 27: click (668, 82)
Your task to perform on an android device: open app "DoorDash - Dasher" Image 28: 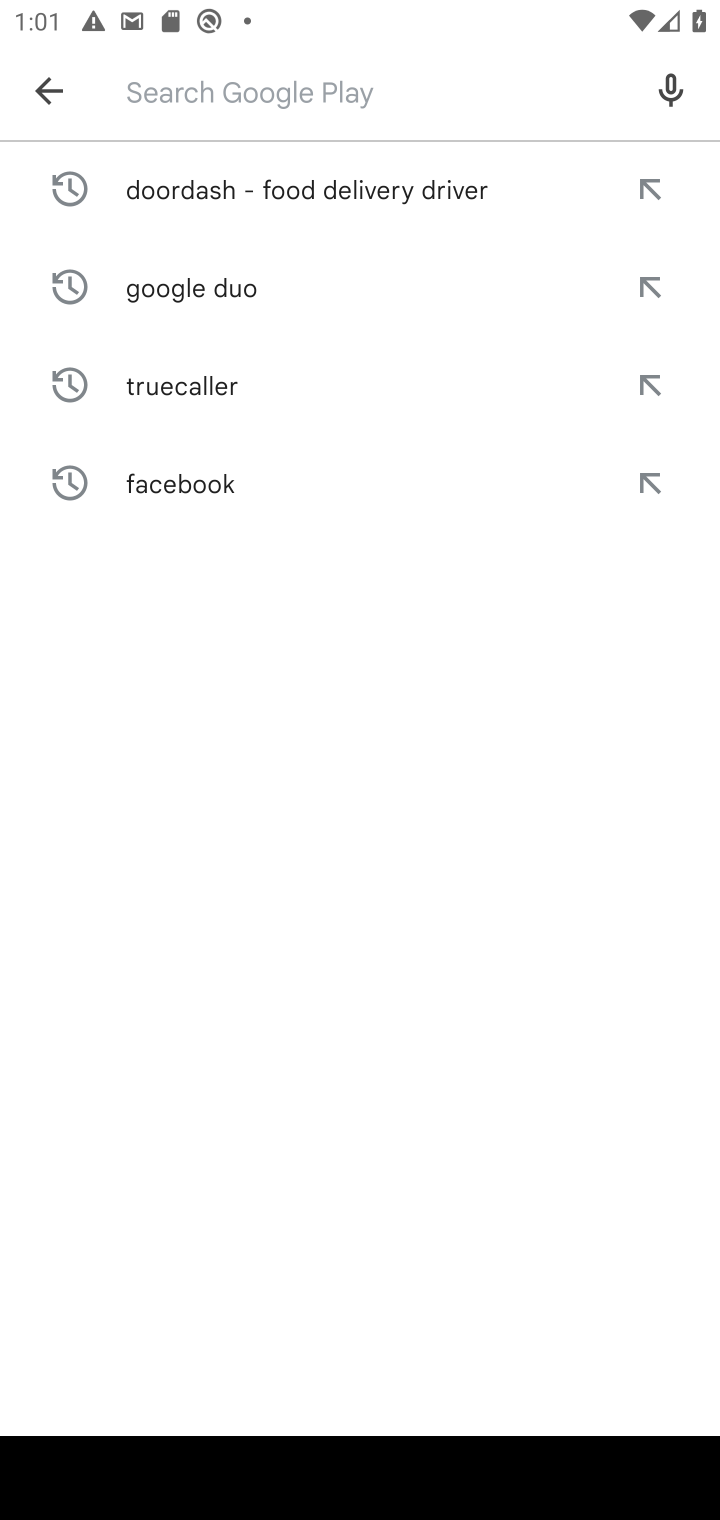
Step 28: type "DoorDash"
Your task to perform on an android device: open app "DoorDash - Dasher" Image 29: 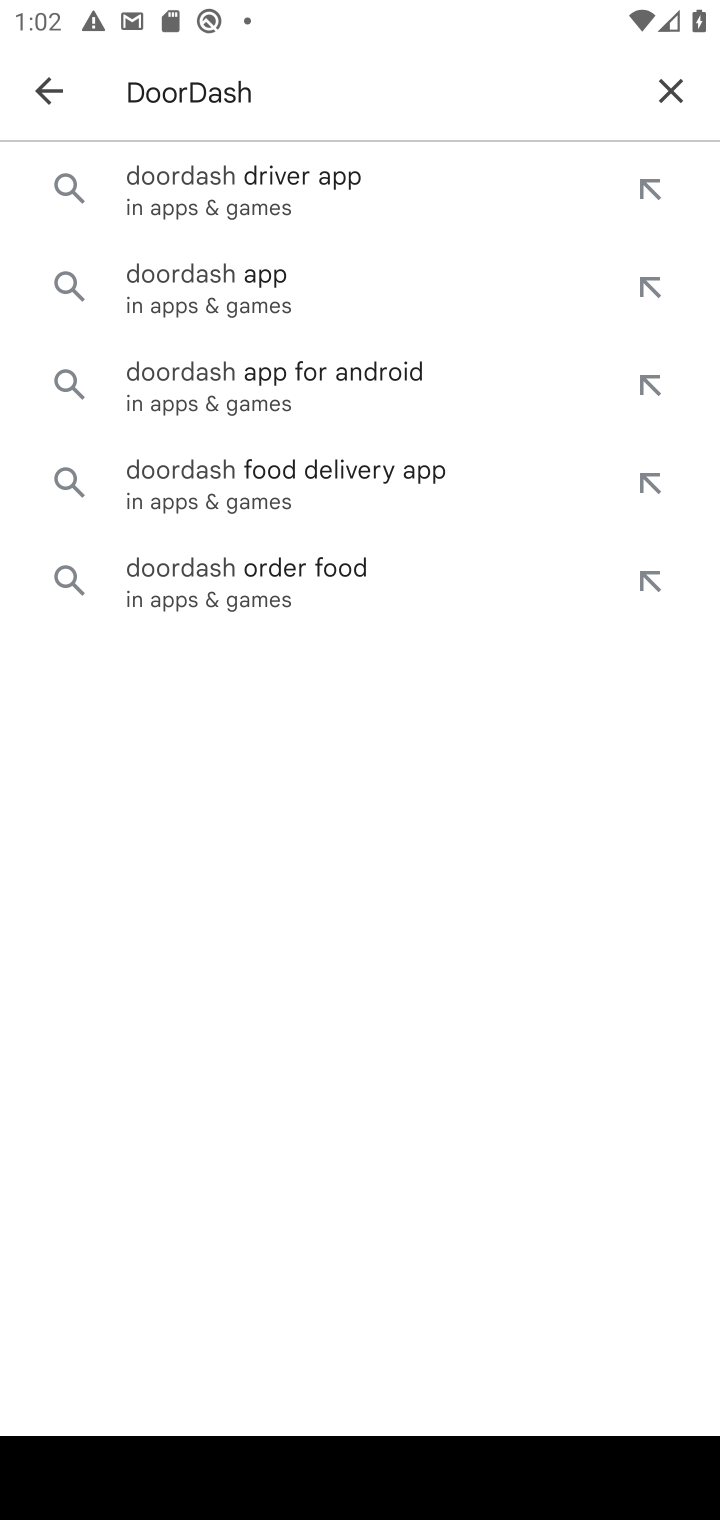
Step 29: type "  dasher"
Your task to perform on an android device: open app "DoorDash - Dasher" Image 30: 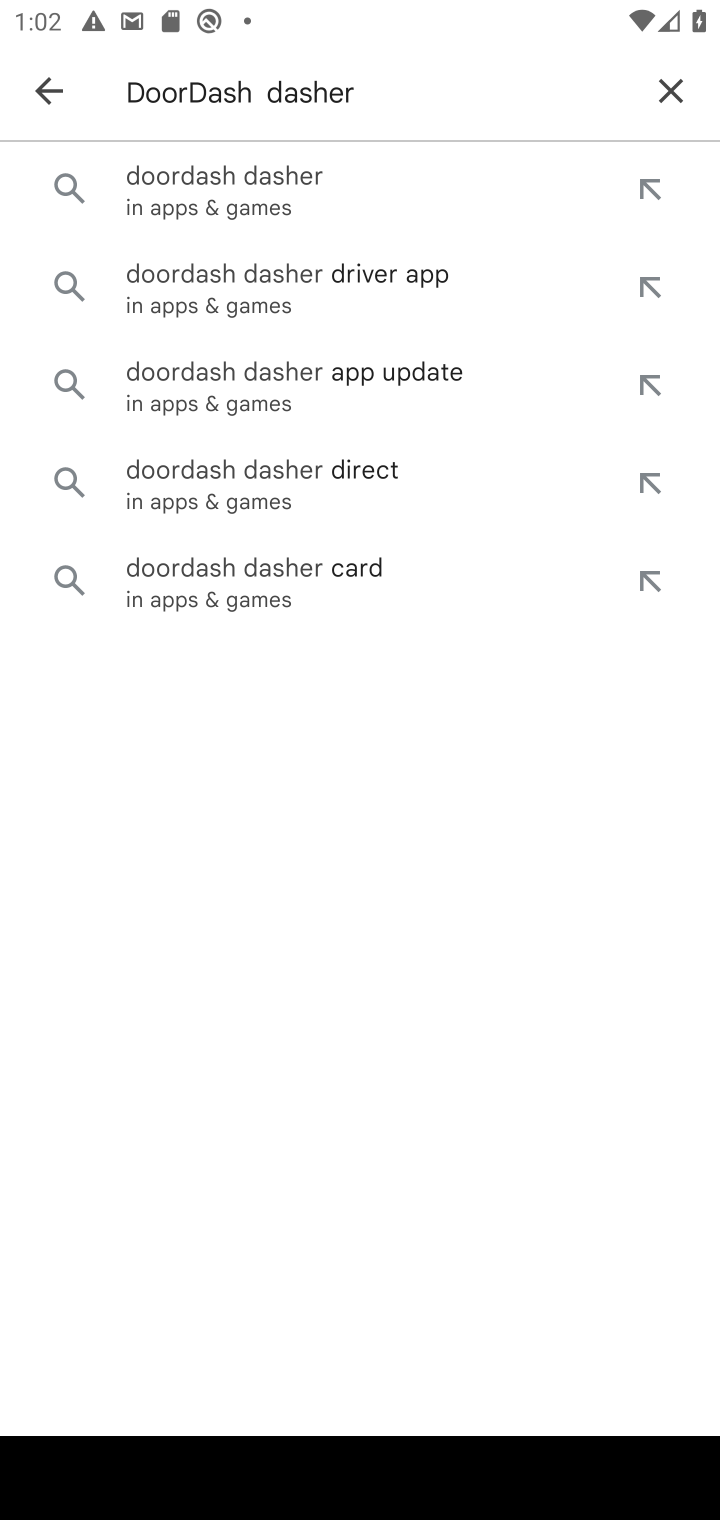
Step 30: click (278, 210)
Your task to perform on an android device: open app "DoorDash - Dasher" Image 31: 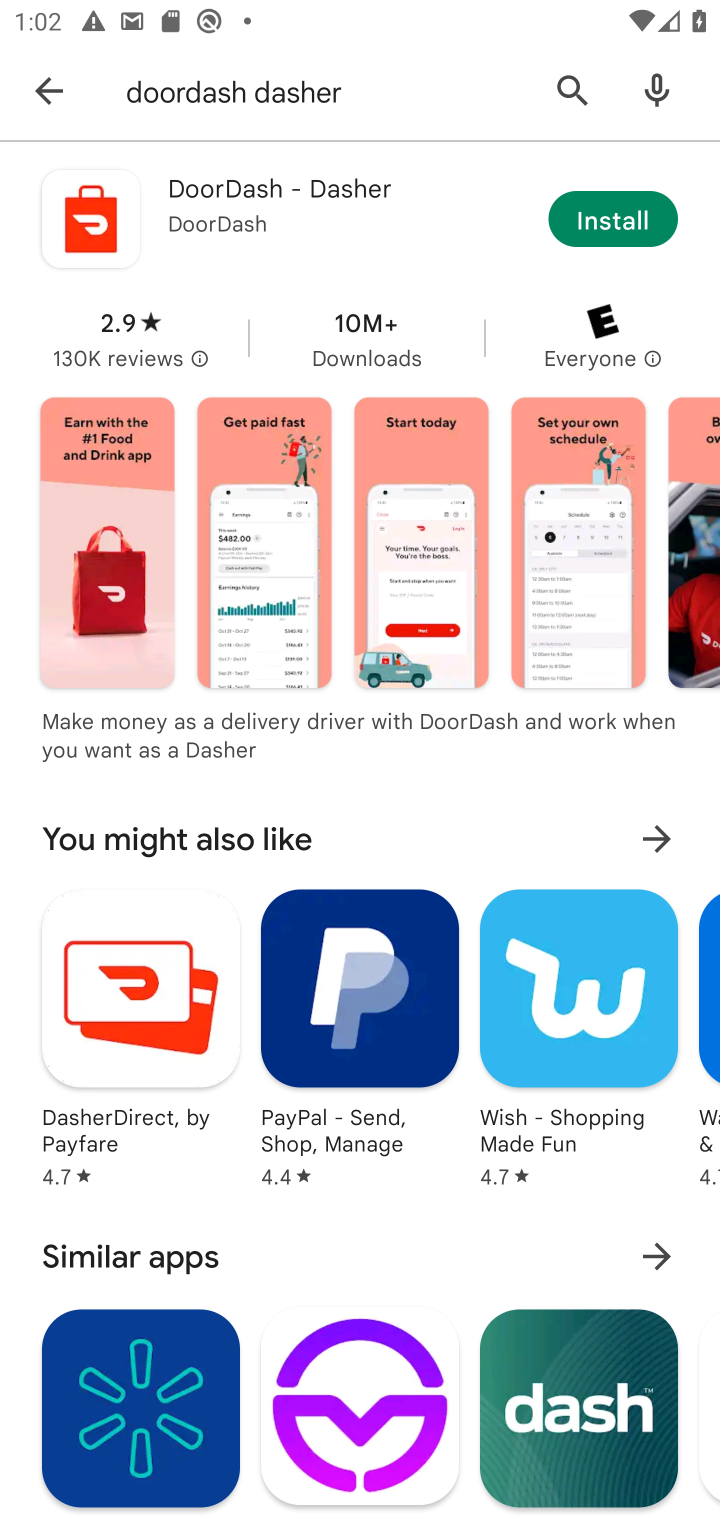
Step 31: click (581, 223)
Your task to perform on an android device: open app "DoorDash - Dasher" Image 32: 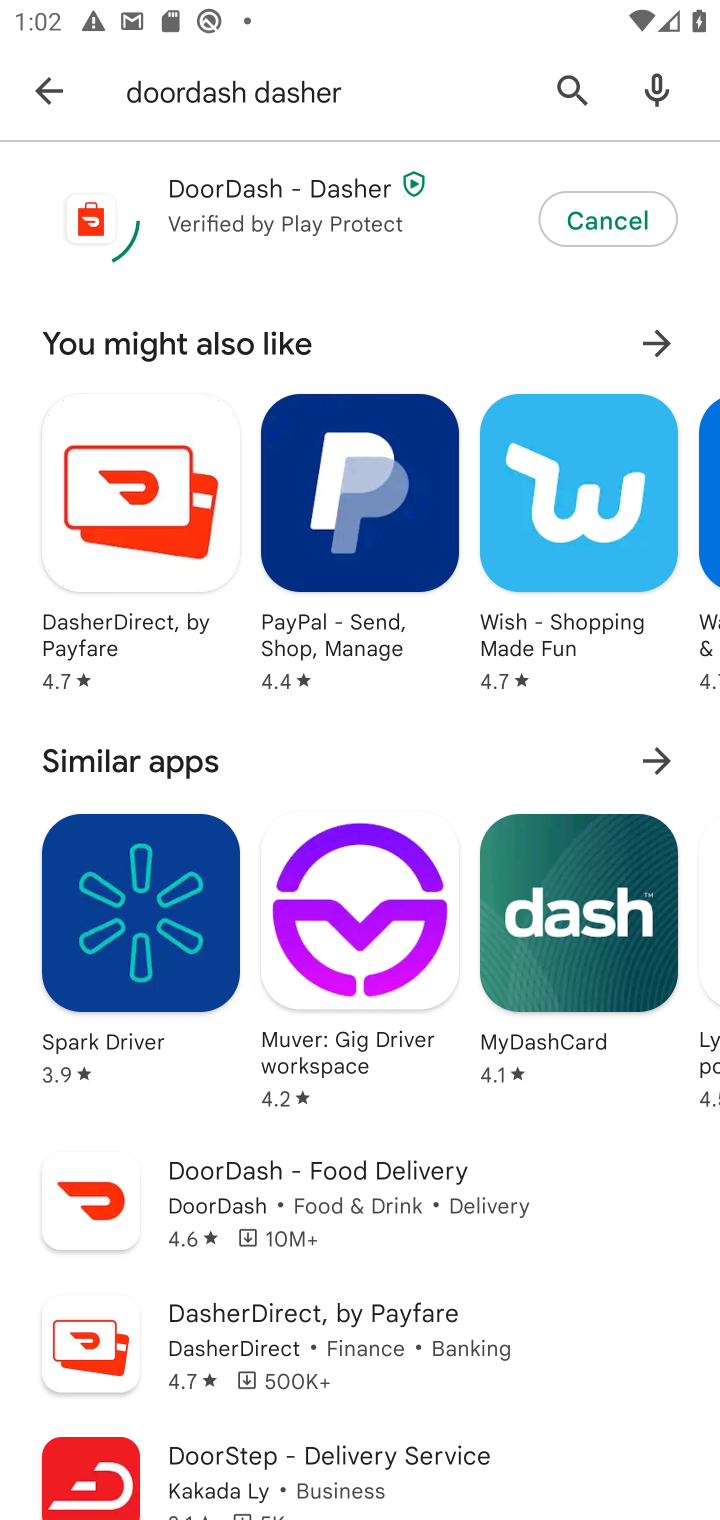
Step 32: click (596, 196)
Your task to perform on an android device: open app "DoorDash - Dasher" Image 33: 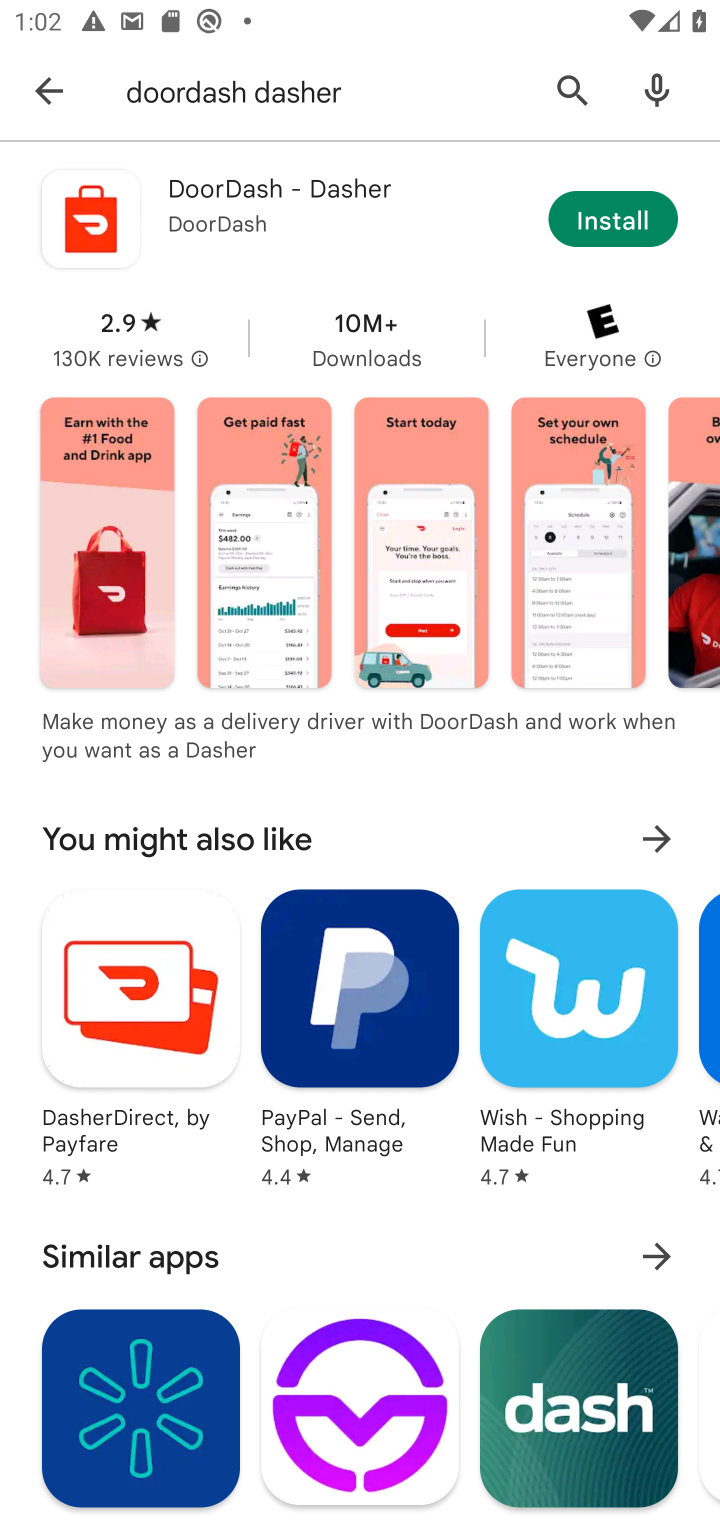
Step 33: click (323, 181)
Your task to perform on an android device: open app "DoorDash - Dasher" Image 34: 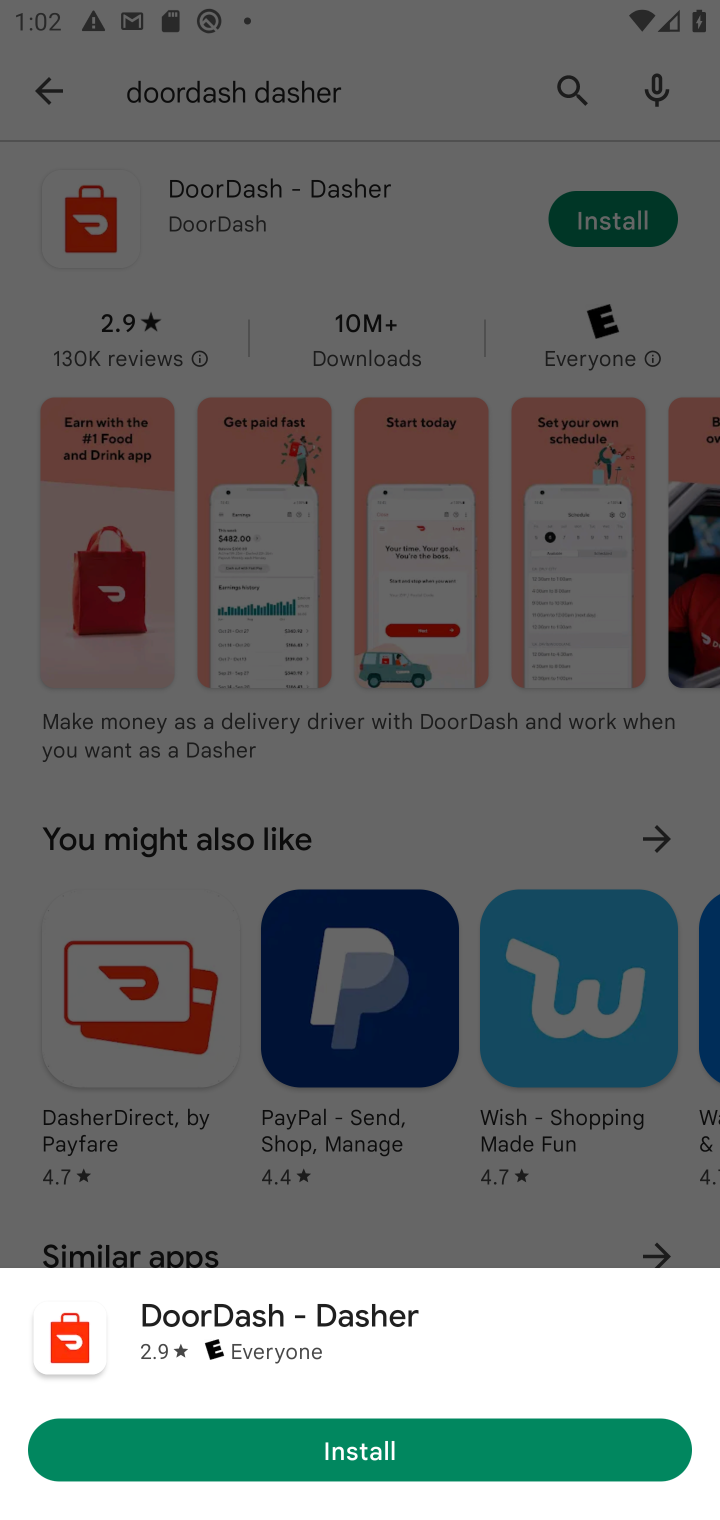
Step 34: click (64, 1450)
Your task to perform on an android device: open app "DoorDash - Dasher" Image 35: 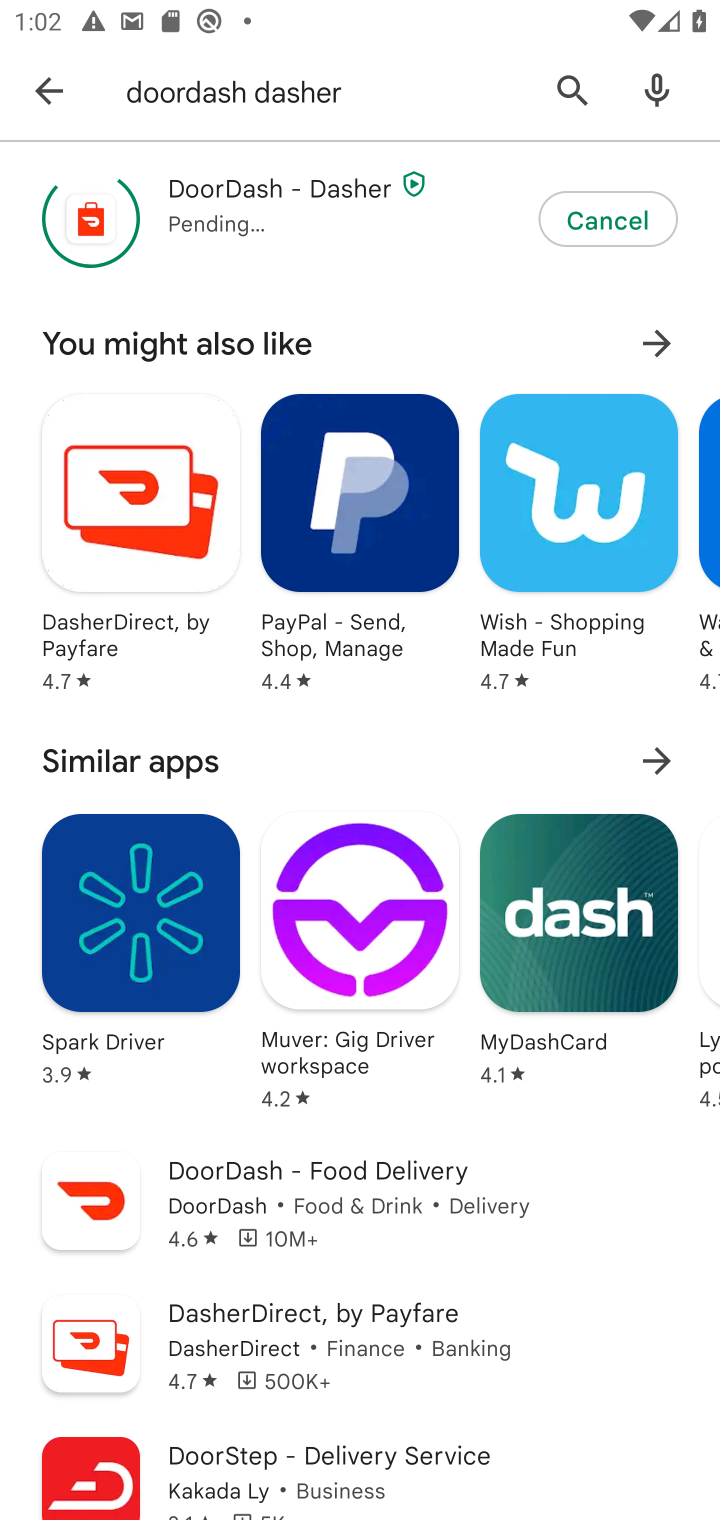
Step 35: click (596, 233)
Your task to perform on an android device: open app "DoorDash - Dasher" Image 36: 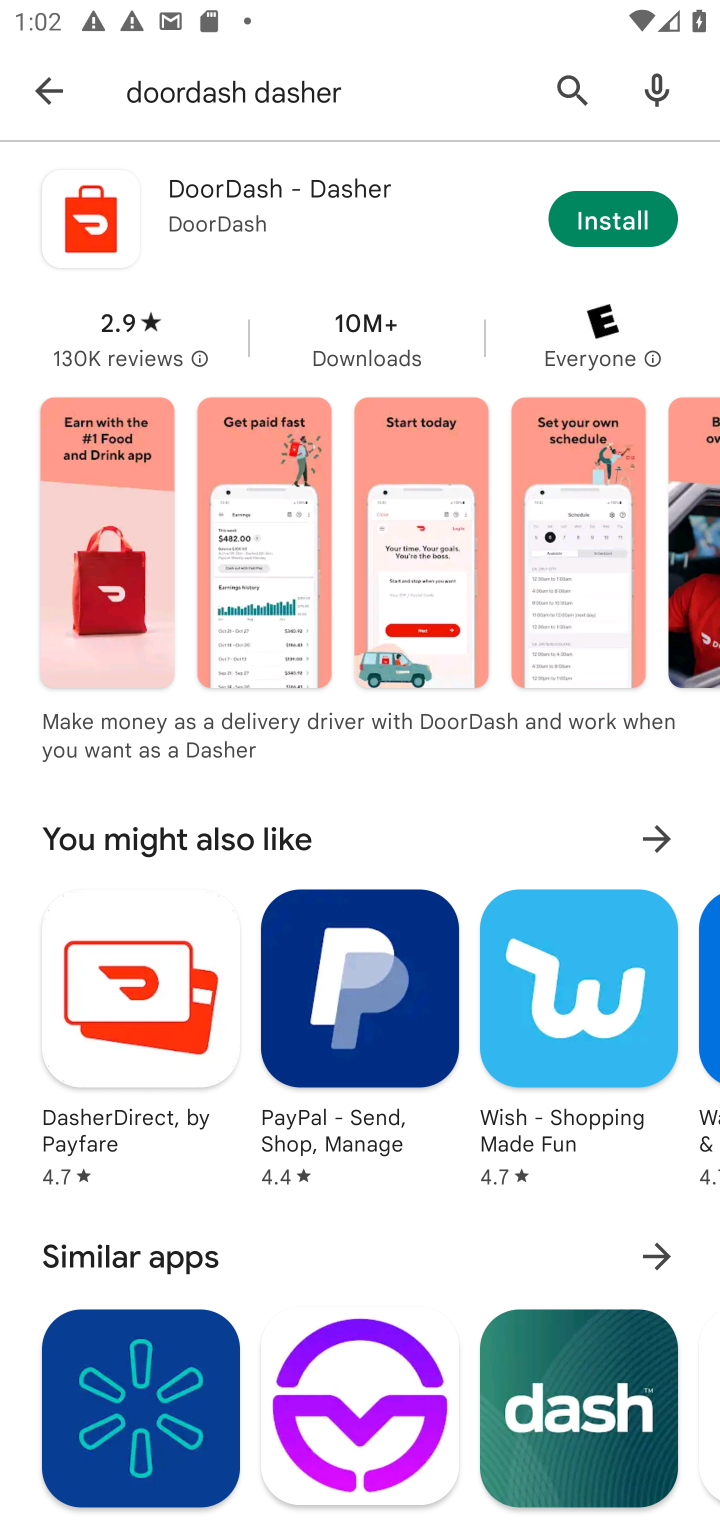
Step 36: task complete